Your task to perform on an android device: Check the best rated table lamp on Crate and Barrel Image 0: 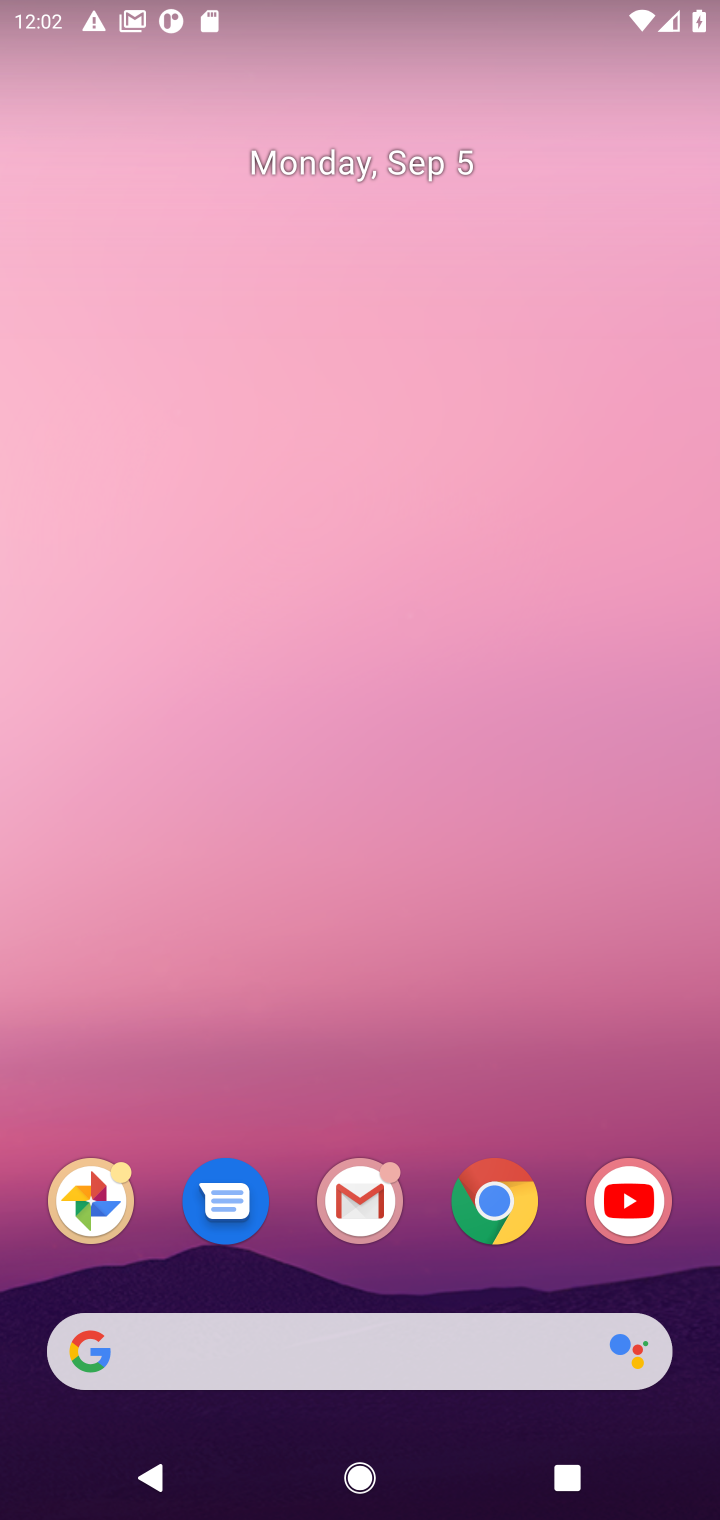
Step 0: click (497, 1207)
Your task to perform on an android device: Check the best rated table lamp on Crate and Barrel Image 1: 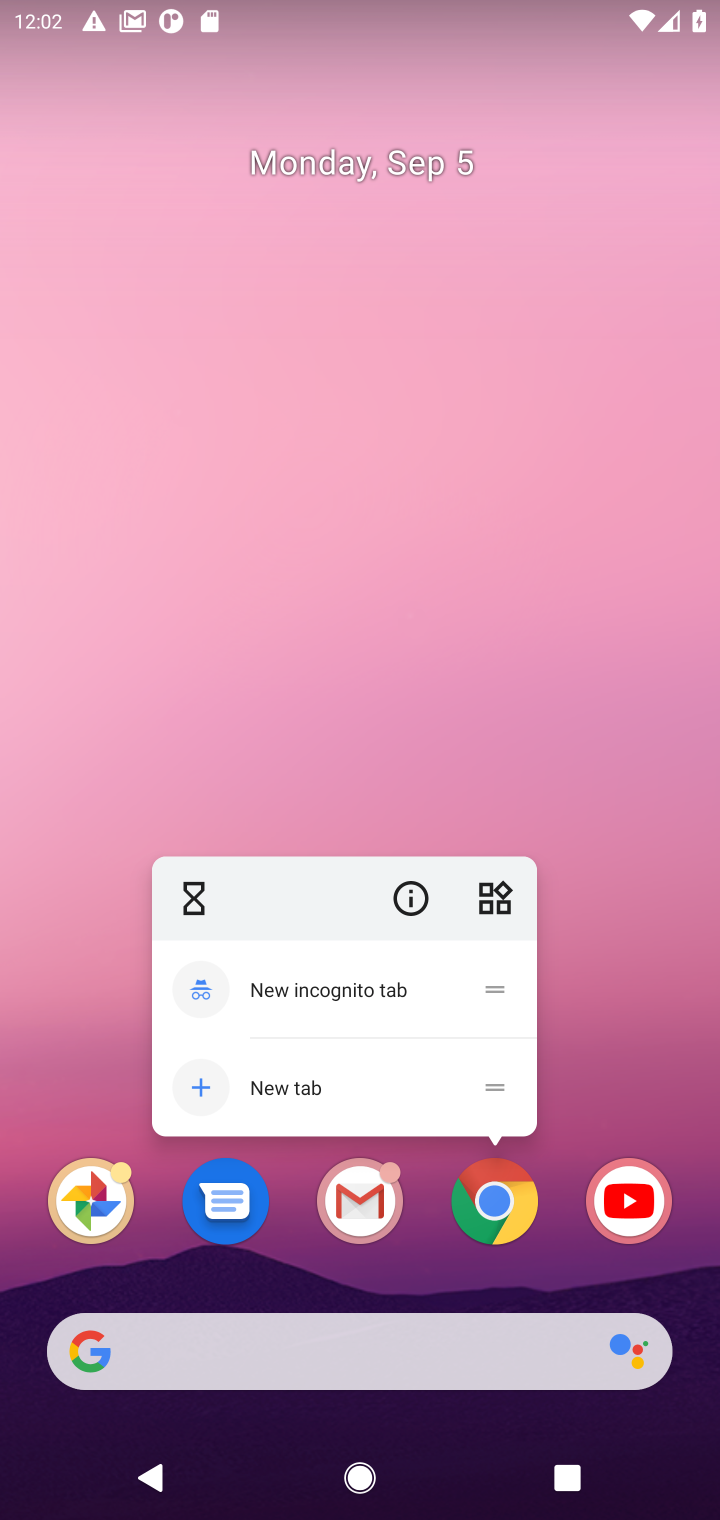
Step 1: click (508, 1190)
Your task to perform on an android device: Check the best rated table lamp on Crate and Barrel Image 2: 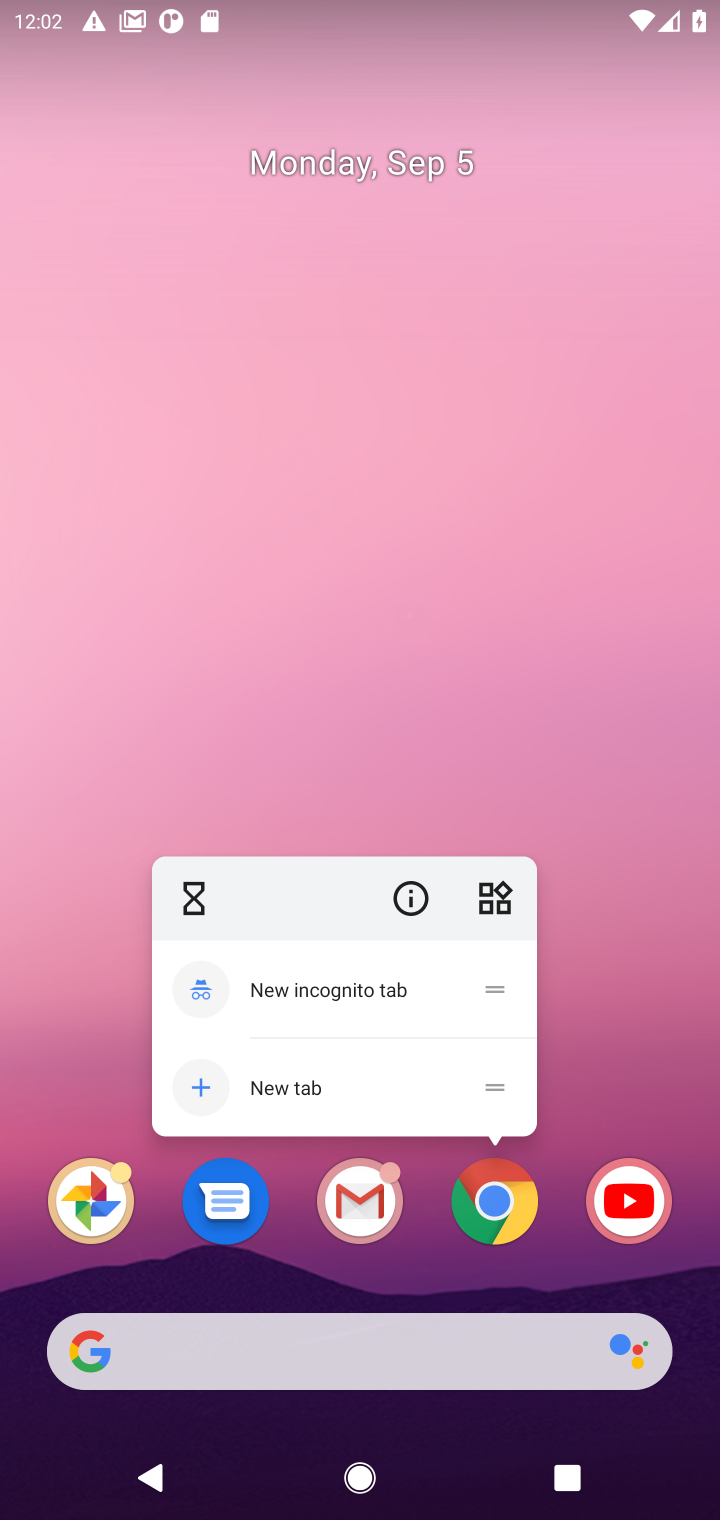
Step 2: click (489, 1217)
Your task to perform on an android device: Check the best rated table lamp on Crate and Barrel Image 3: 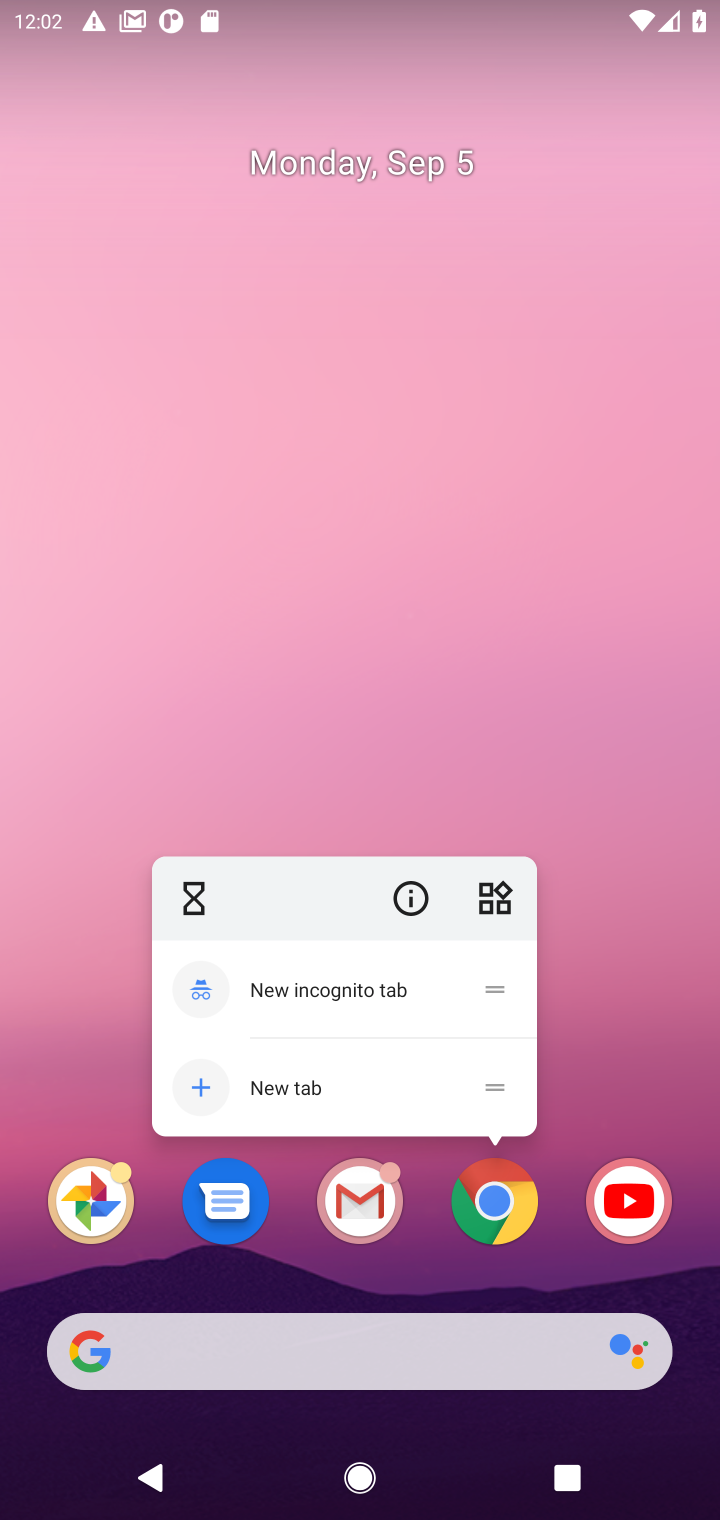
Step 3: click (498, 1206)
Your task to perform on an android device: Check the best rated table lamp on Crate and Barrel Image 4: 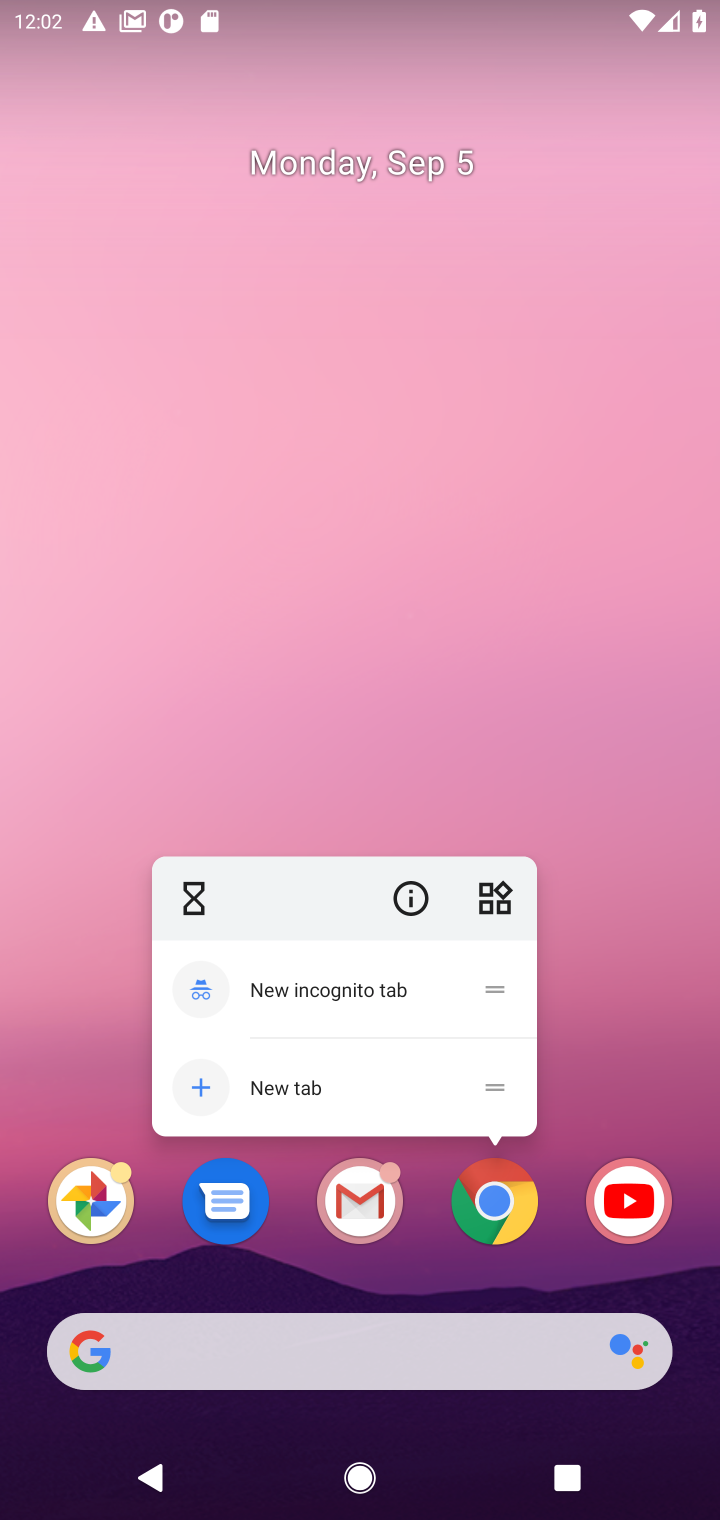
Step 4: click (498, 1206)
Your task to perform on an android device: Check the best rated table lamp on Crate and Barrel Image 5: 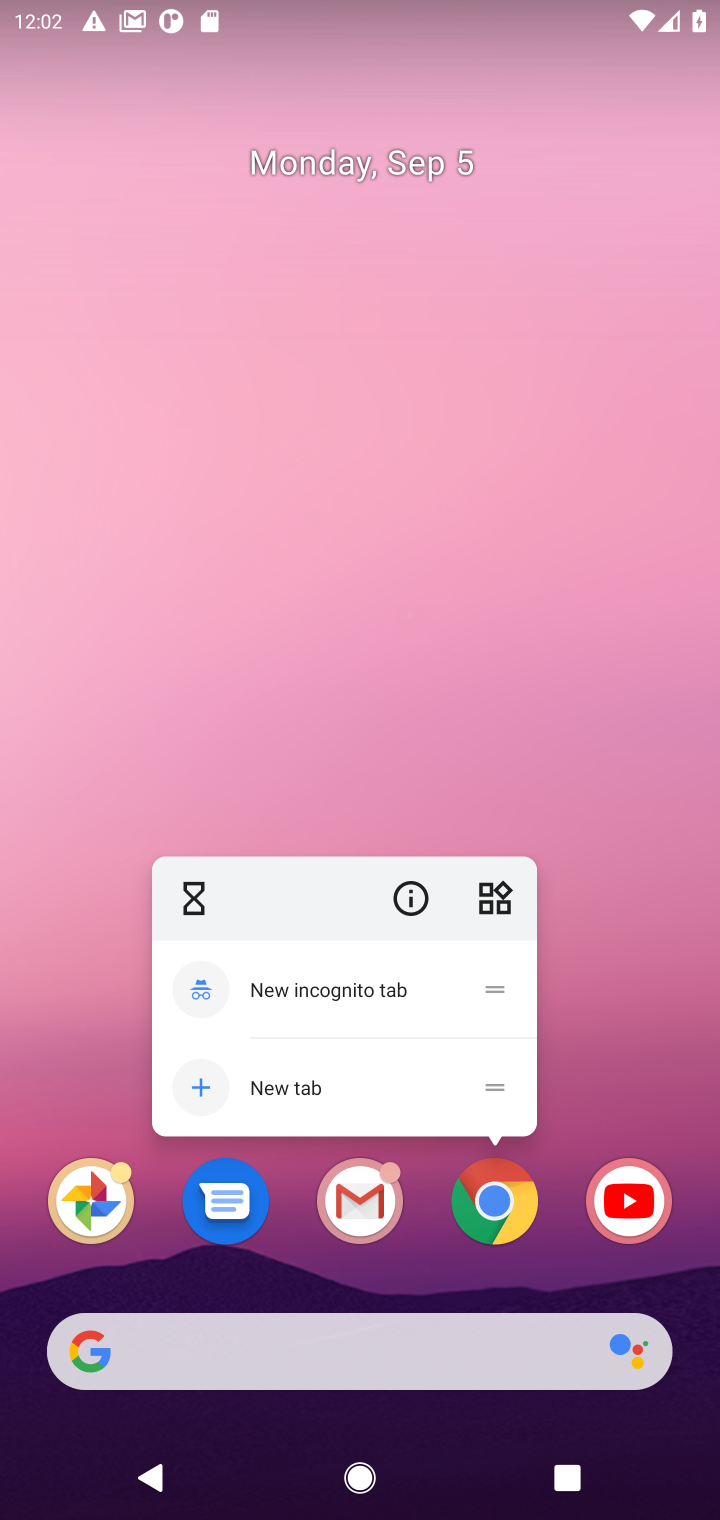
Step 5: click (498, 1206)
Your task to perform on an android device: Check the best rated table lamp on Crate and Barrel Image 6: 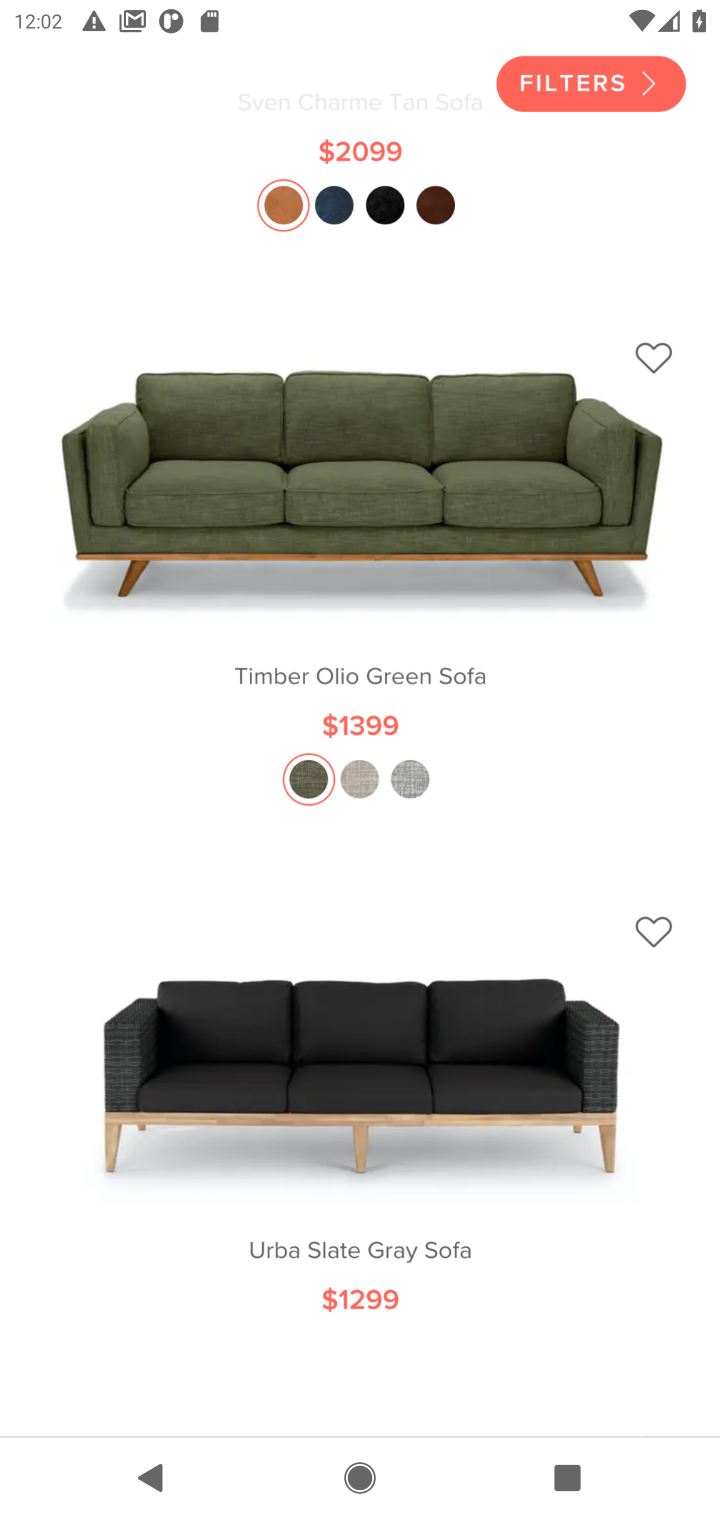
Step 6: click (498, 1206)
Your task to perform on an android device: Check the best rated table lamp on Crate and Barrel Image 7: 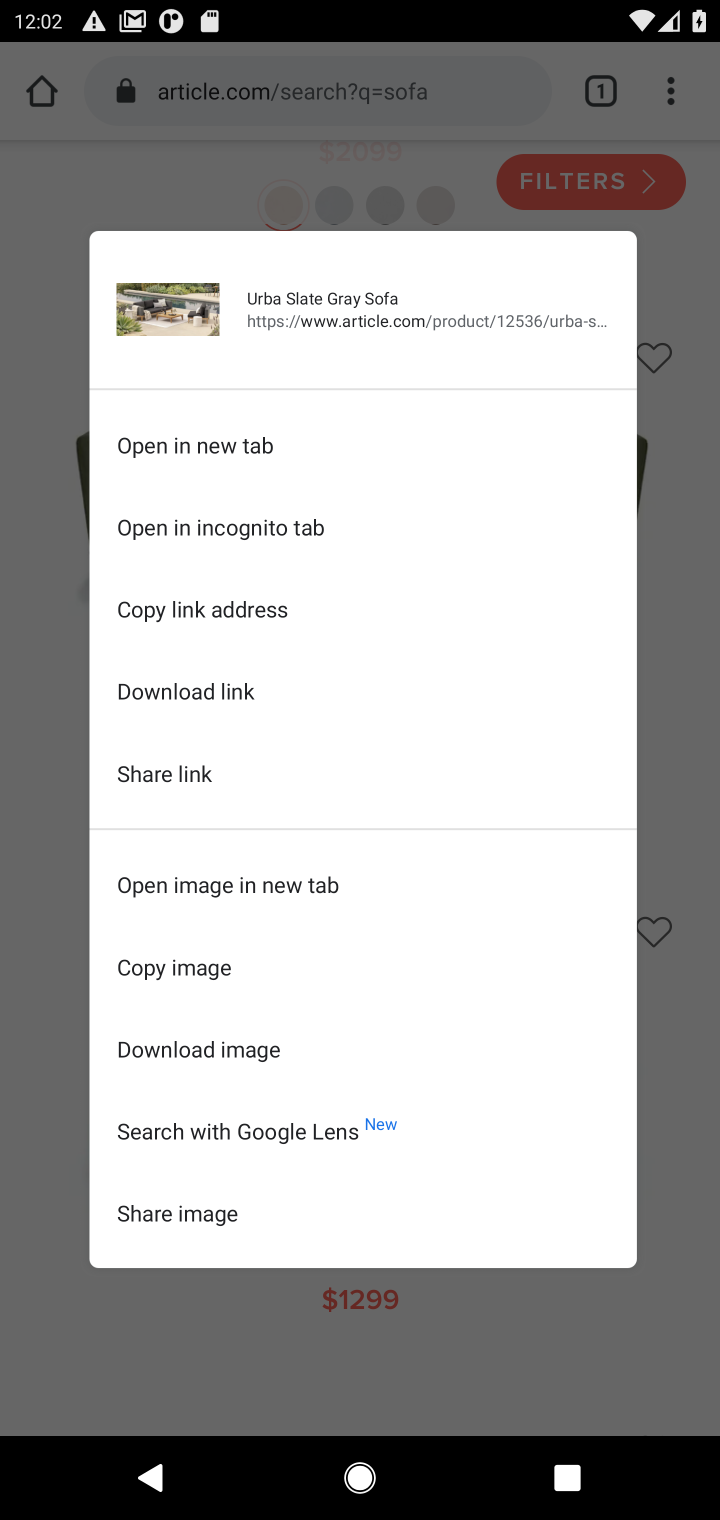
Step 7: click (275, 91)
Your task to perform on an android device: Check the best rated table lamp on Crate and Barrel Image 8: 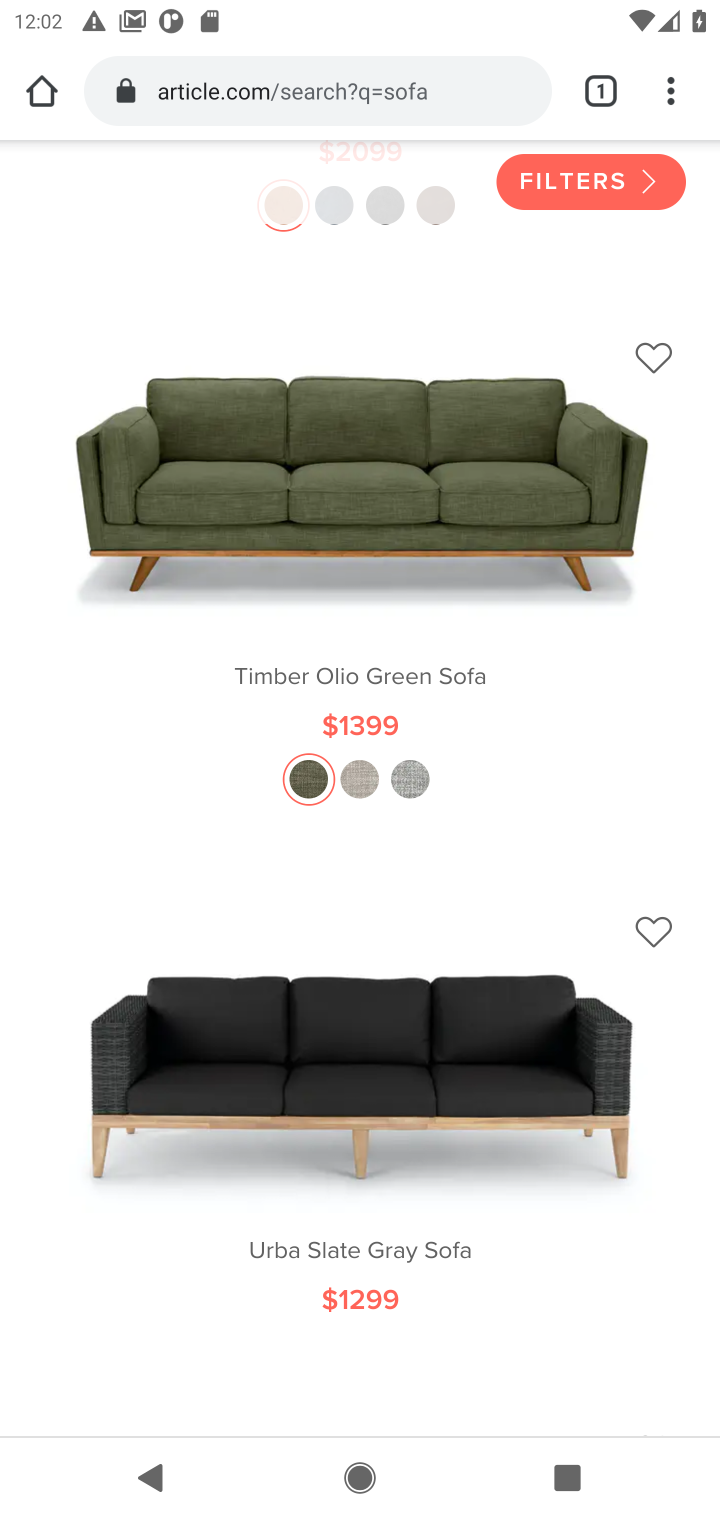
Step 8: click (356, 104)
Your task to perform on an android device: Check the best rated table lamp on Crate and Barrel Image 9: 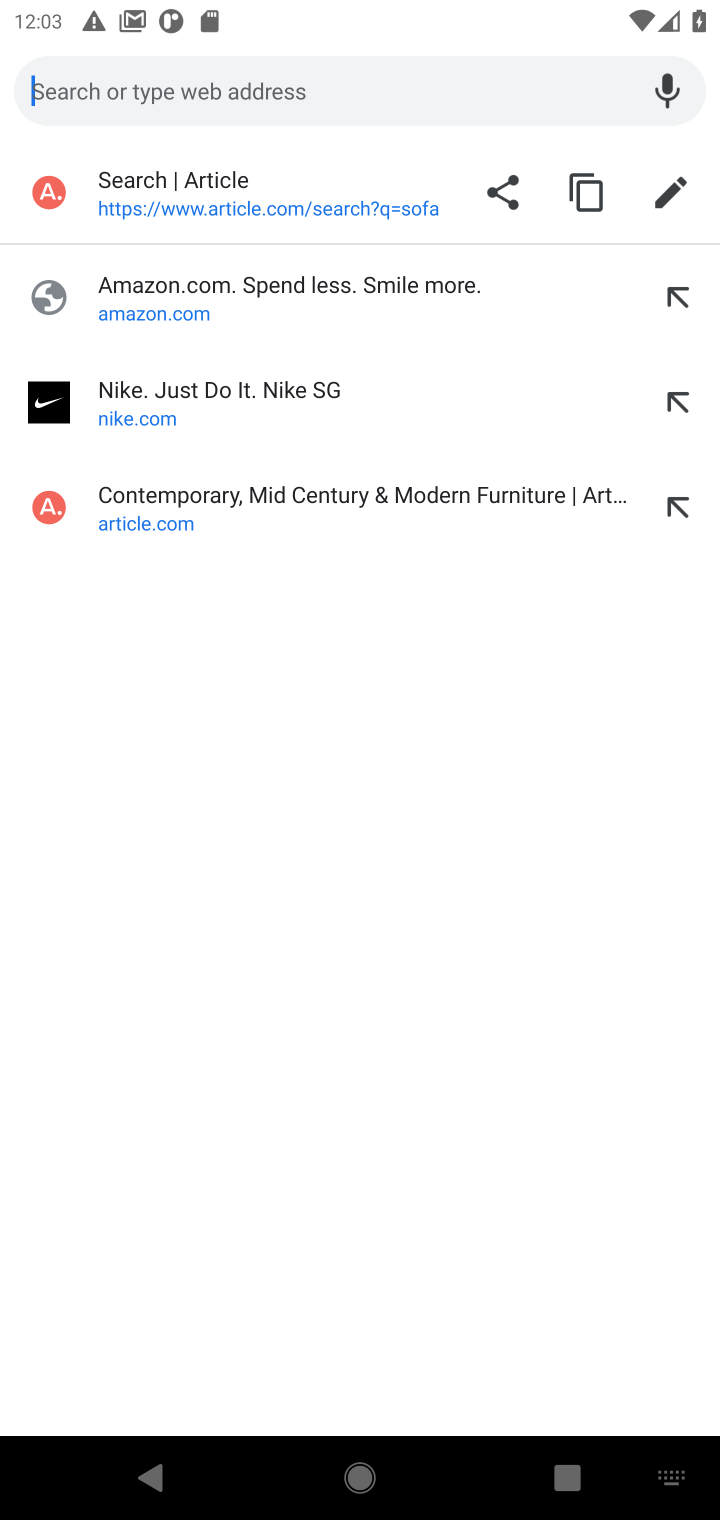
Step 9: type "crate & barrel"
Your task to perform on an android device: Check the best rated table lamp on Crate and Barrel Image 10: 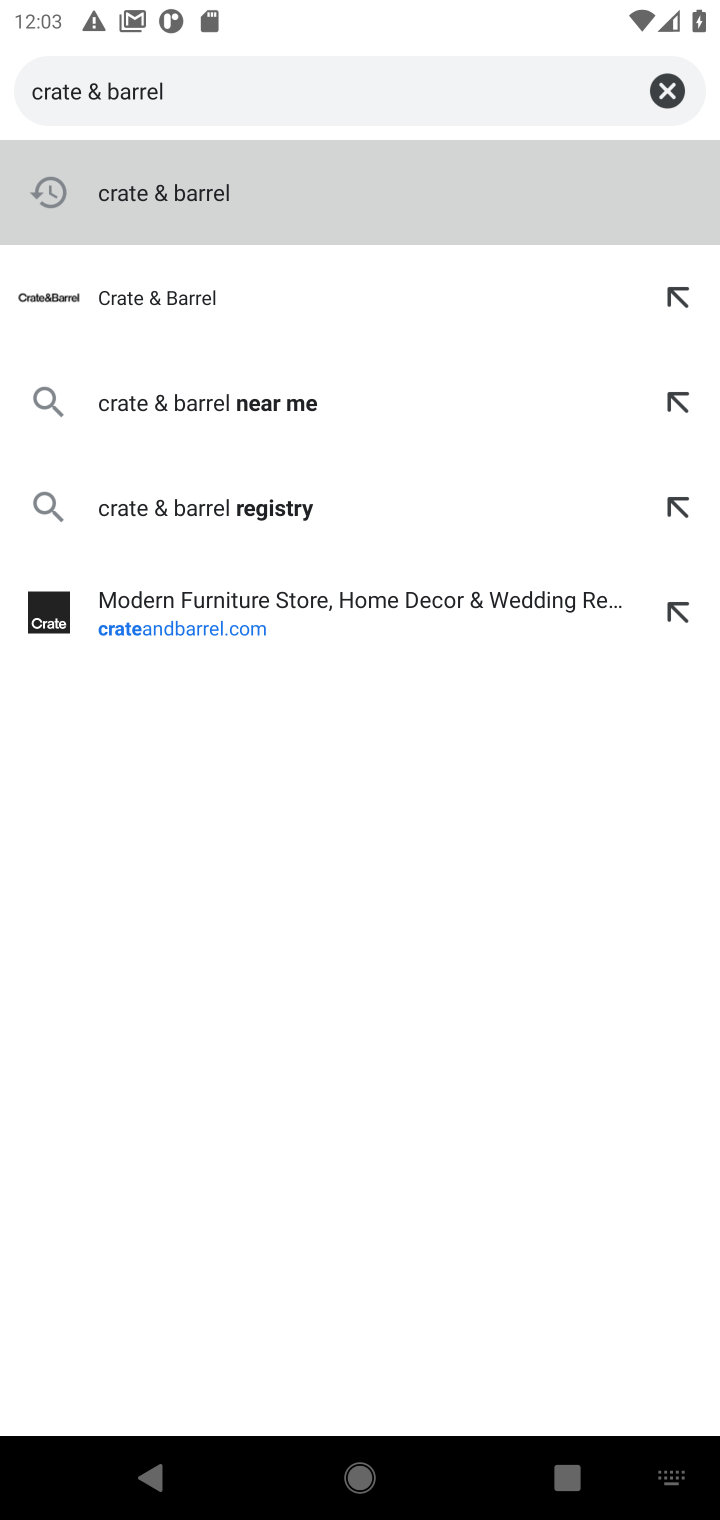
Step 10: click (134, 601)
Your task to perform on an android device: Check the best rated table lamp on Crate and Barrel Image 11: 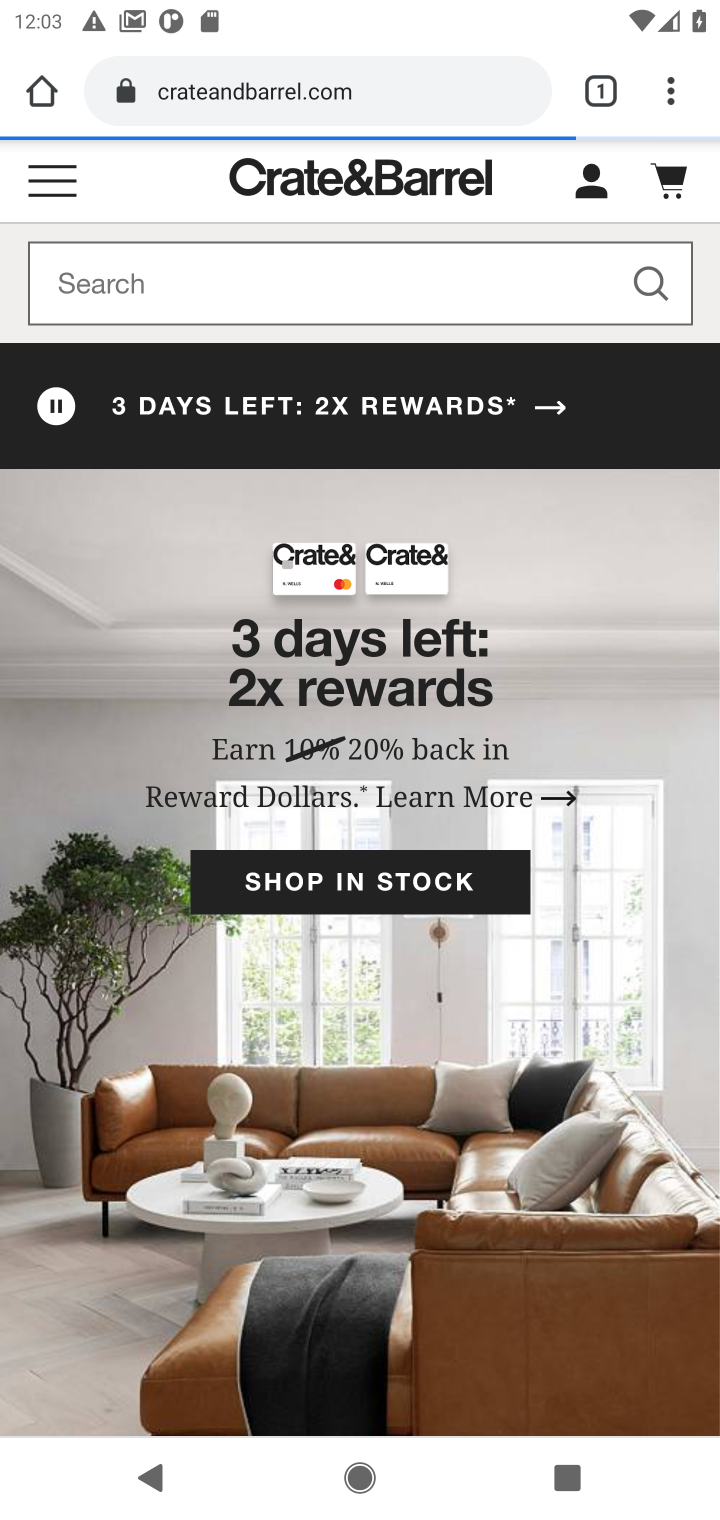
Step 11: click (321, 283)
Your task to perform on an android device: Check the best rated table lamp on Crate and Barrel Image 12: 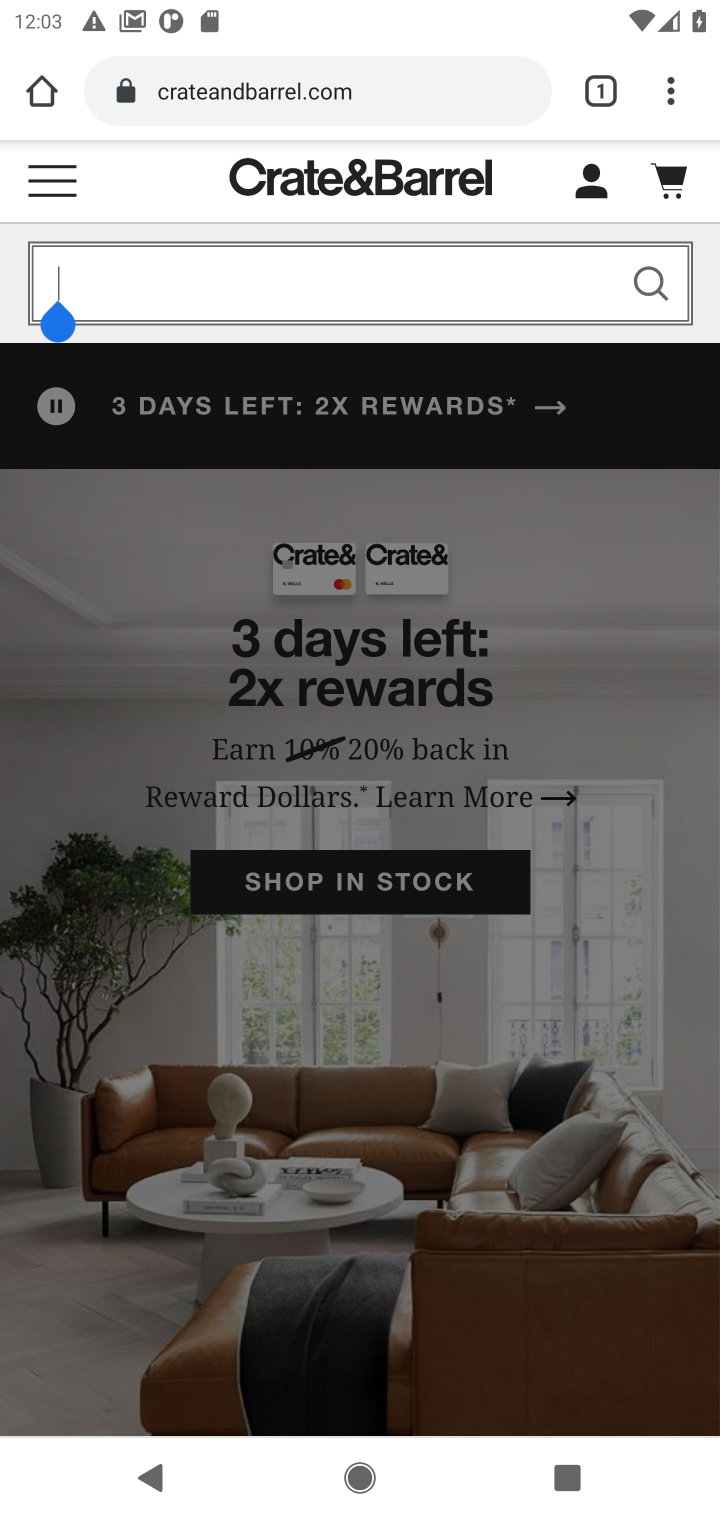
Step 12: click (281, 281)
Your task to perform on an android device: Check the best rated table lamp on Crate and Barrel Image 13: 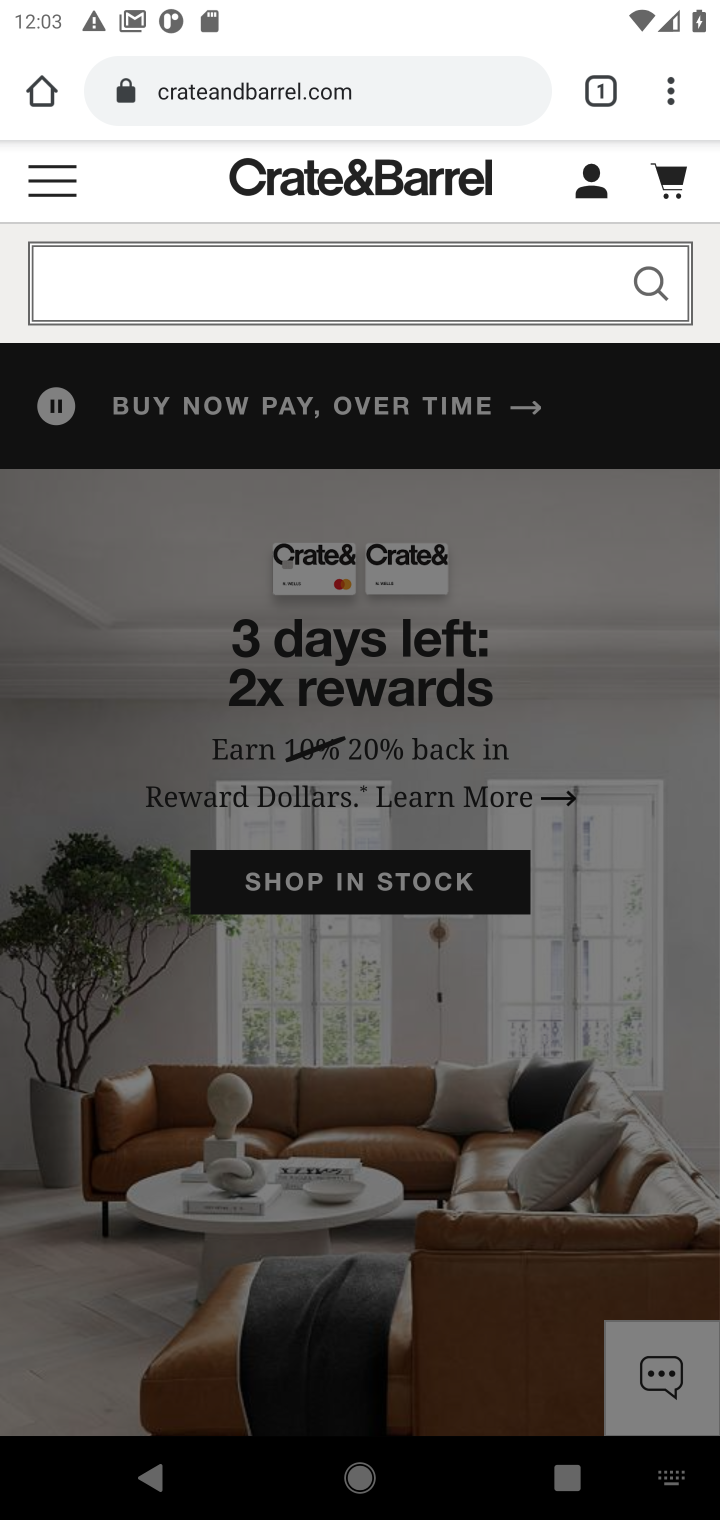
Step 13: type "table lamp"
Your task to perform on an android device: Check the best rated table lamp on Crate and Barrel Image 14: 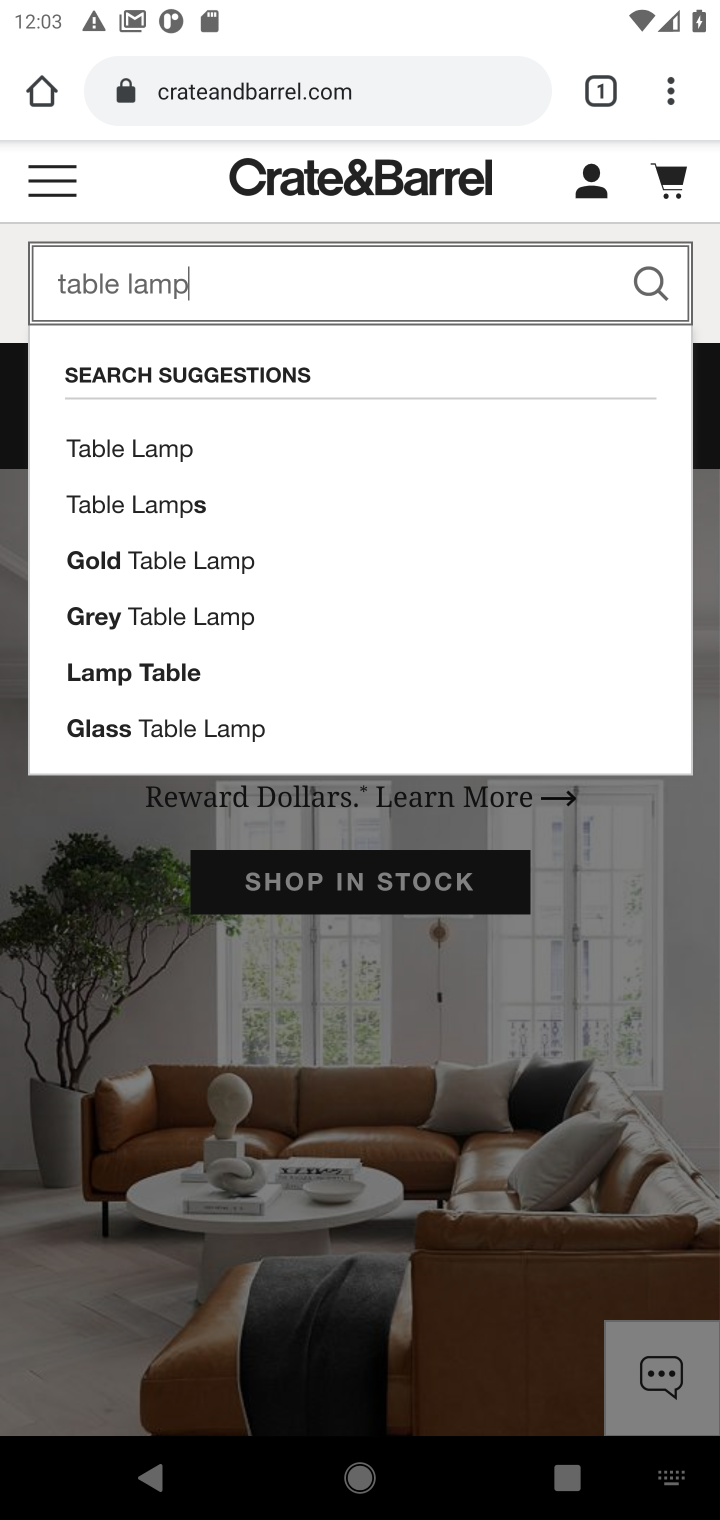
Step 14: click (108, 437)
Your task to perform on an android device: Check the best rated table lamp on Crate and Barrel Image 15: 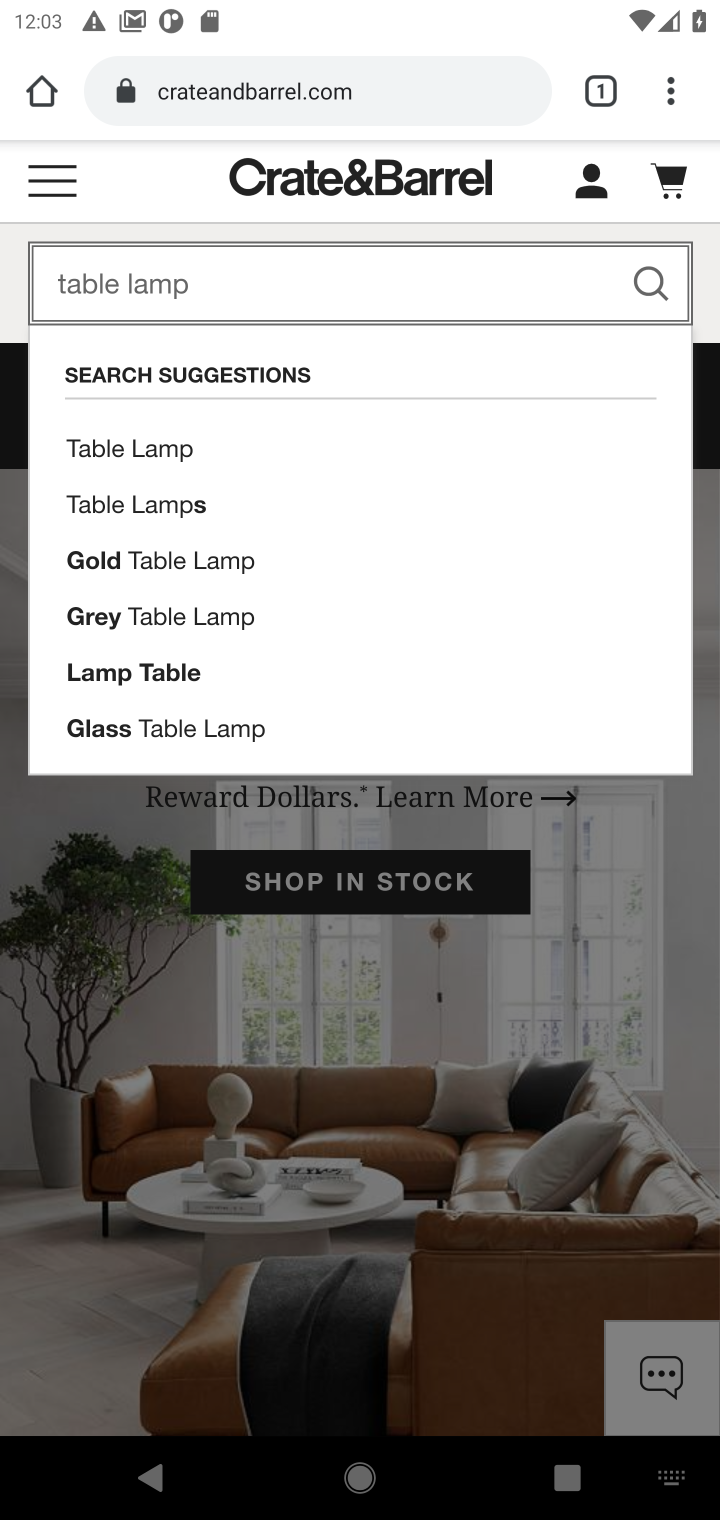
Step 15: click (114, 461)
Your task to perform on an android device: Check the best rated table lamp on Crate and Barrel Image 16: 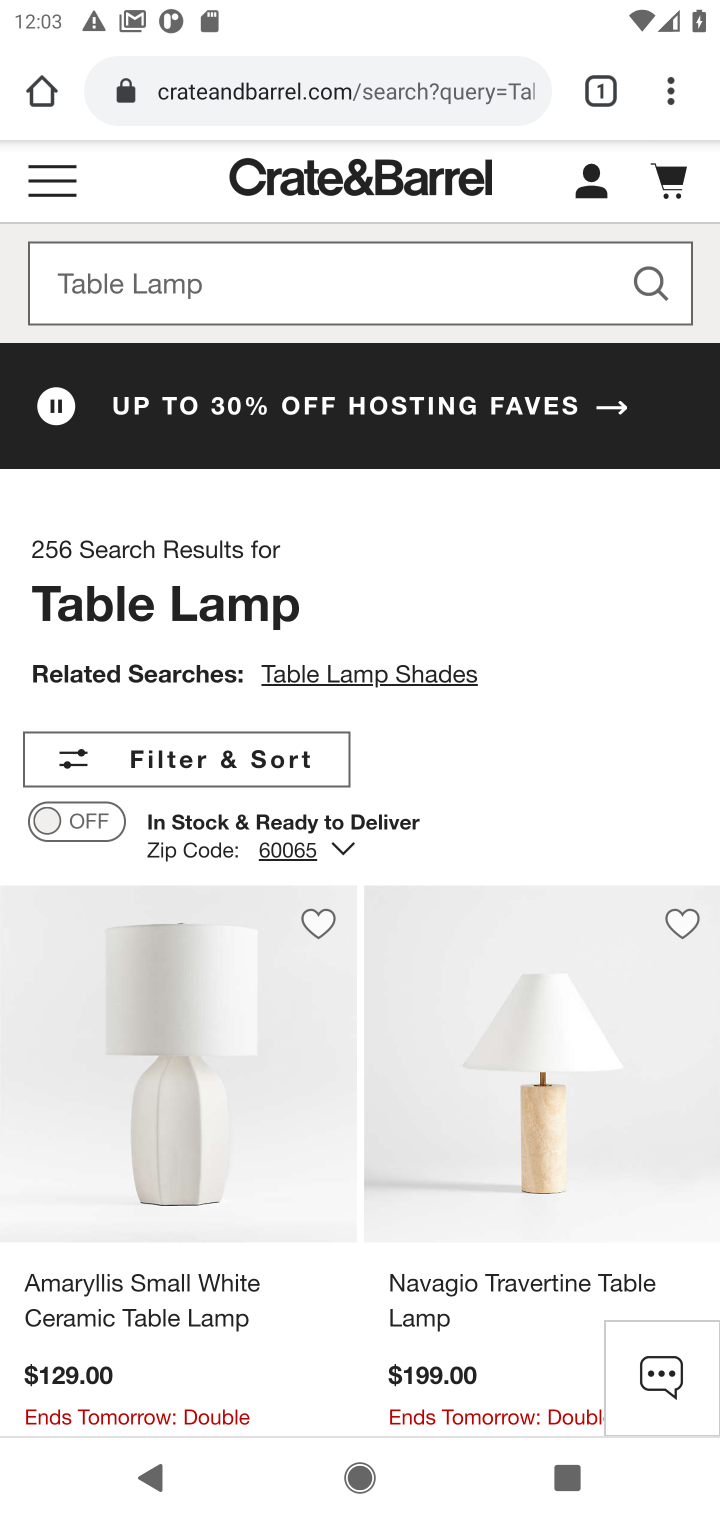
Step 16: click (128, 761)
Your task to perform on an android device: Check the best rated table lamp on Crate and Barrel Image 17: 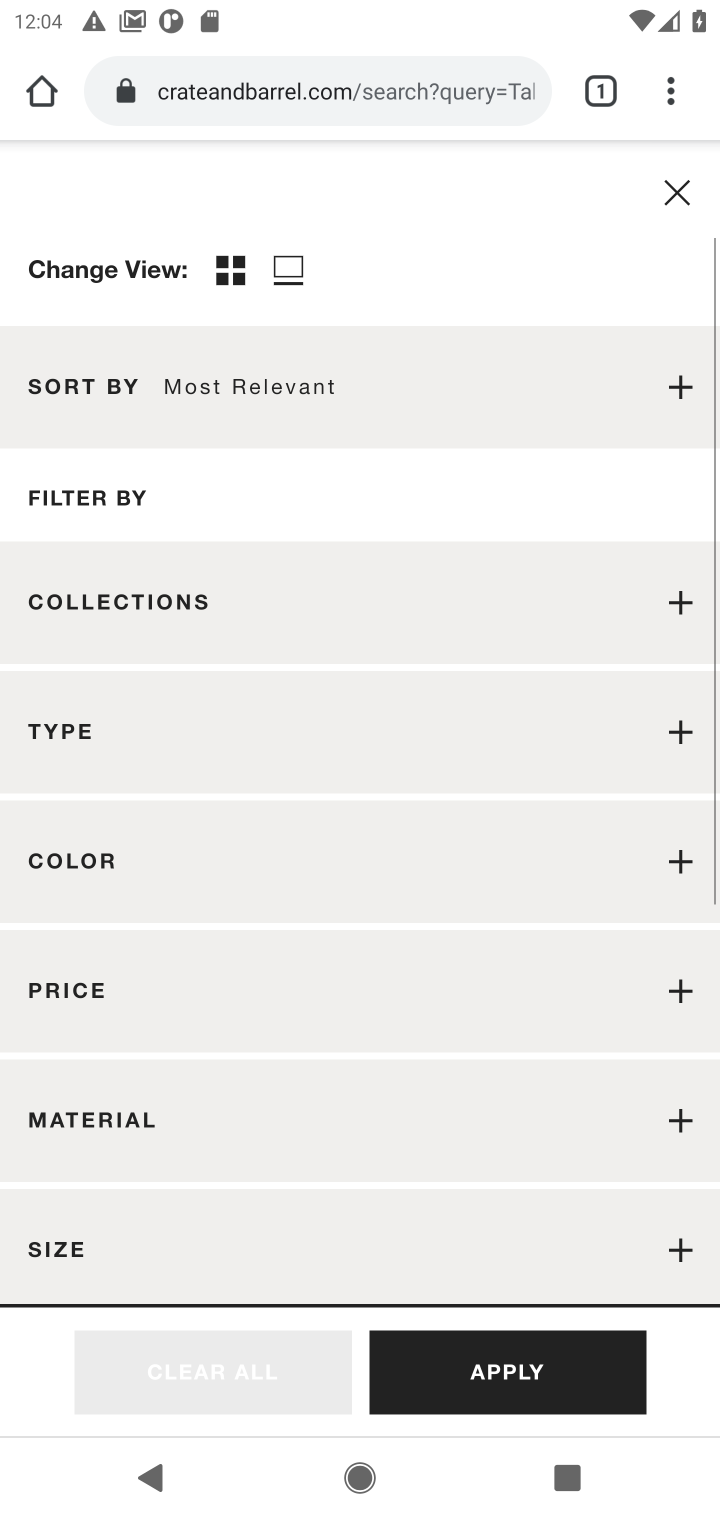
Step 17: drag from (498, 1137) to (504, 431)
Your task to perform on an android device: Check the best rated table lamp on Crate and Barrel Image 18: 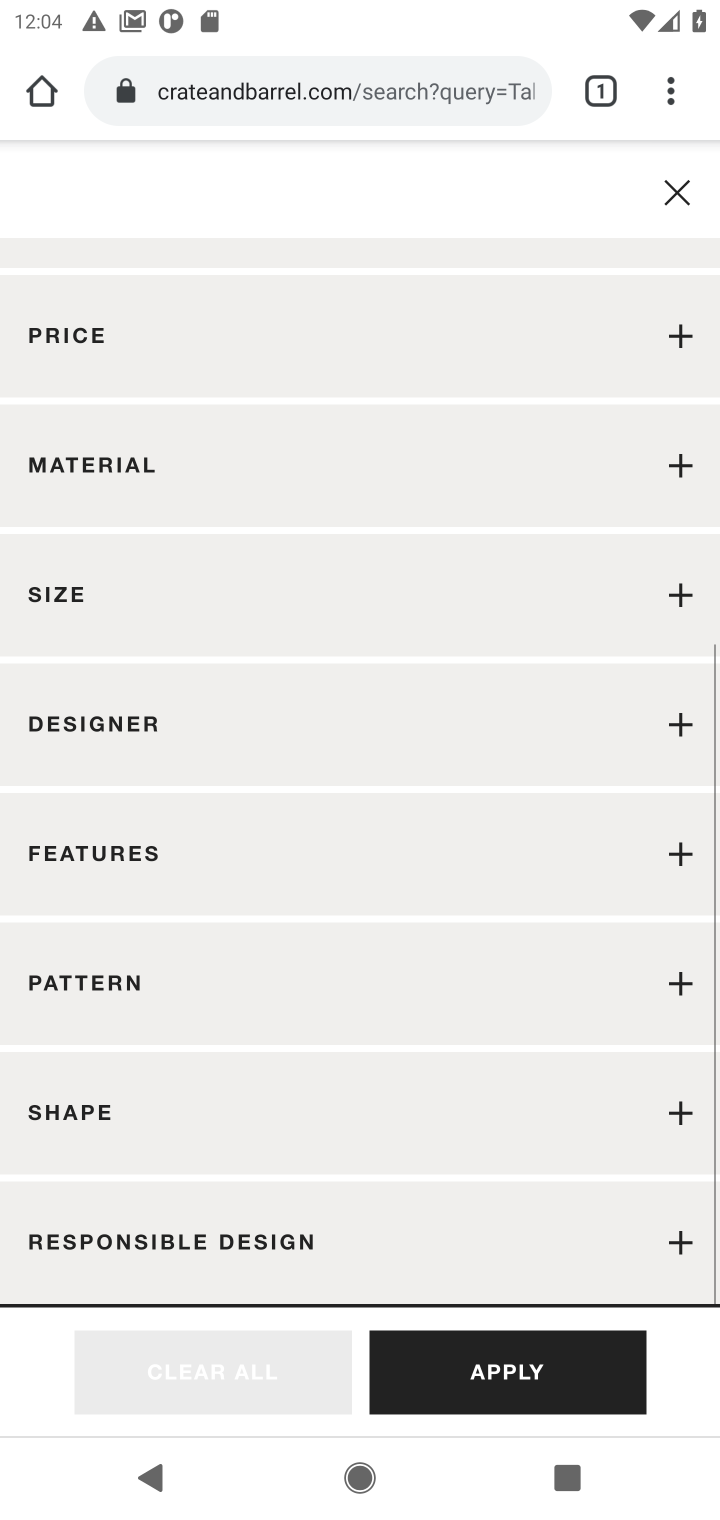
Step 18: drag from (374, 1140) to (451, 531)
Your task to perform on an android device: Check the best rated table lamp on Crate and Barrel Image 19: 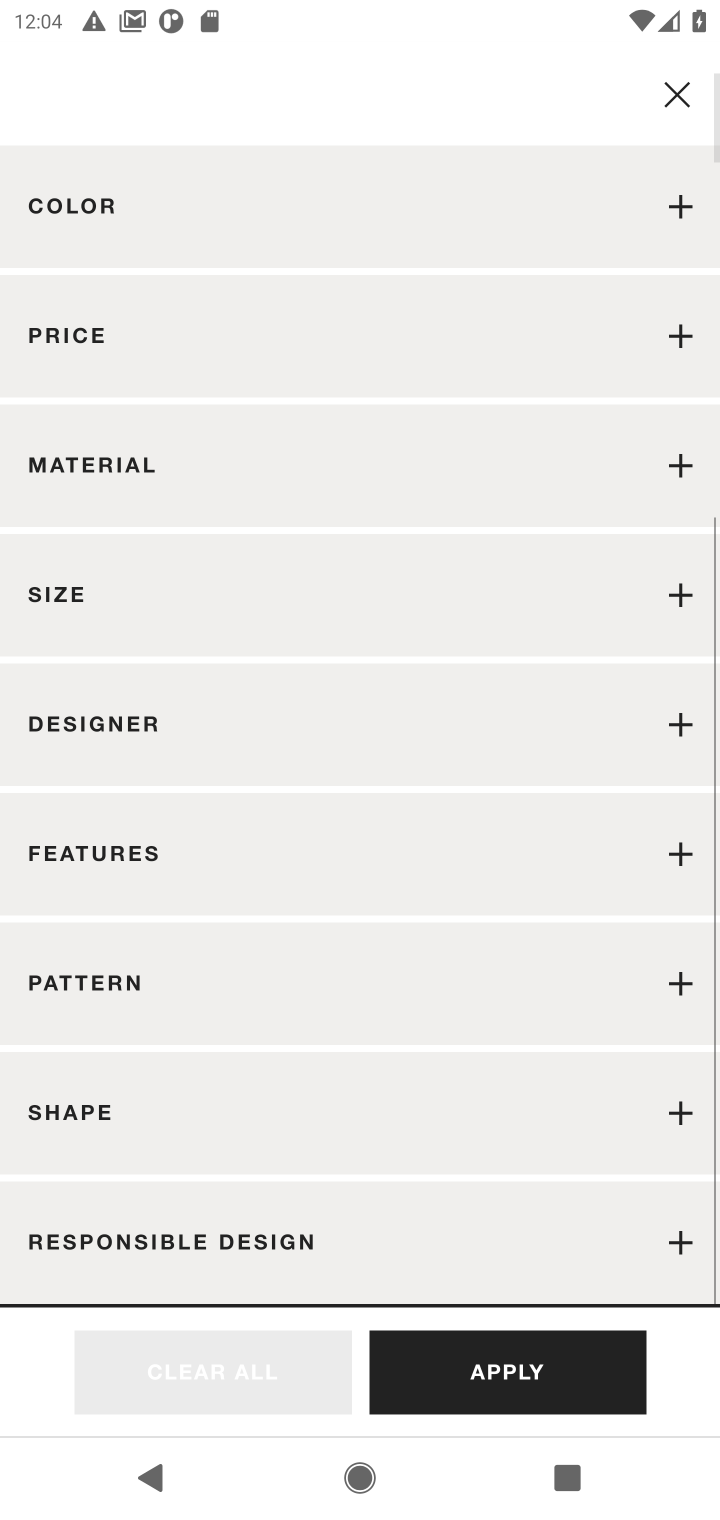
Step 19: drag from (491, 867) to (469, 412)
Your task to perform on an android device: Check the best rated table lamp on Crate and Barrel Image 20: 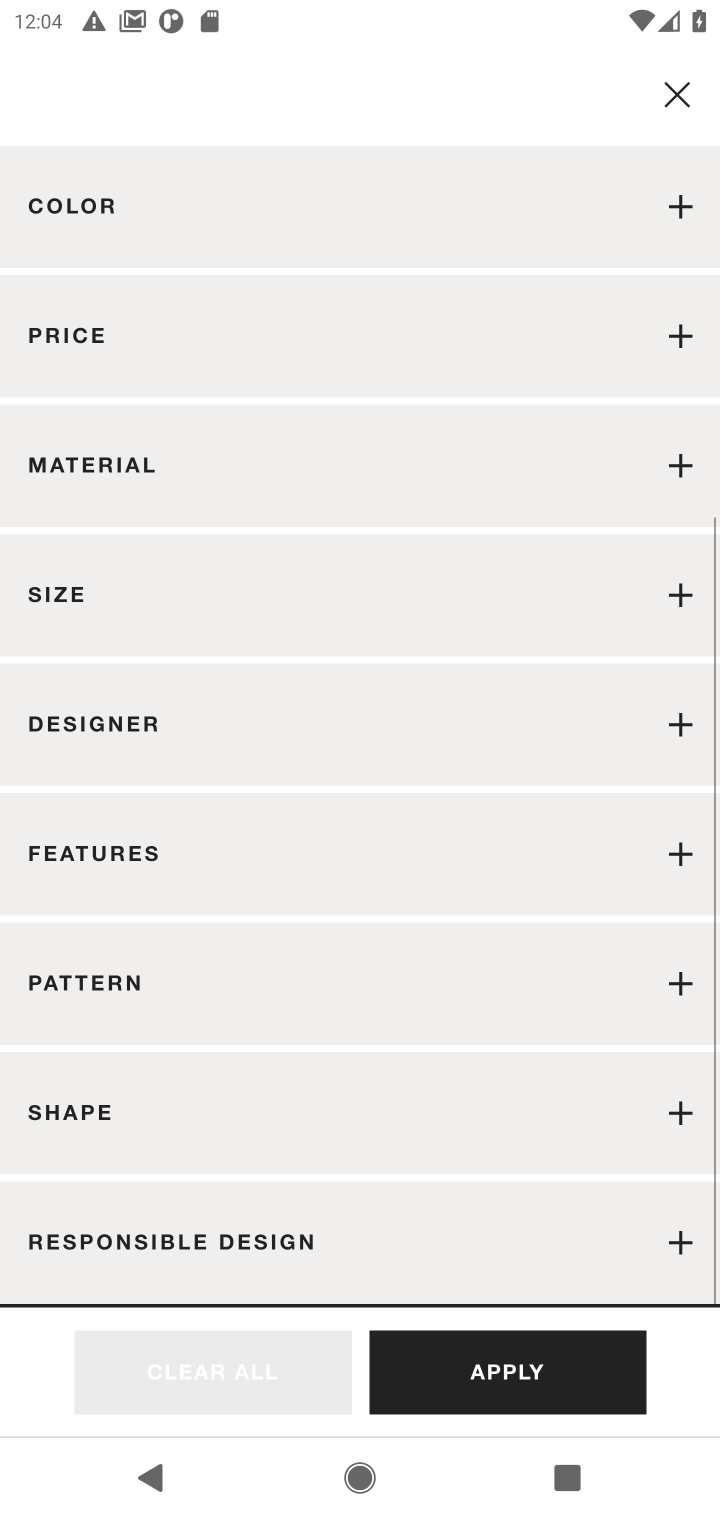
Step 20: drag from (474, 984) to (429, 545)
Your task to perform on an android device: Check the best rated table lamp on Crate and Barrel Image 21: 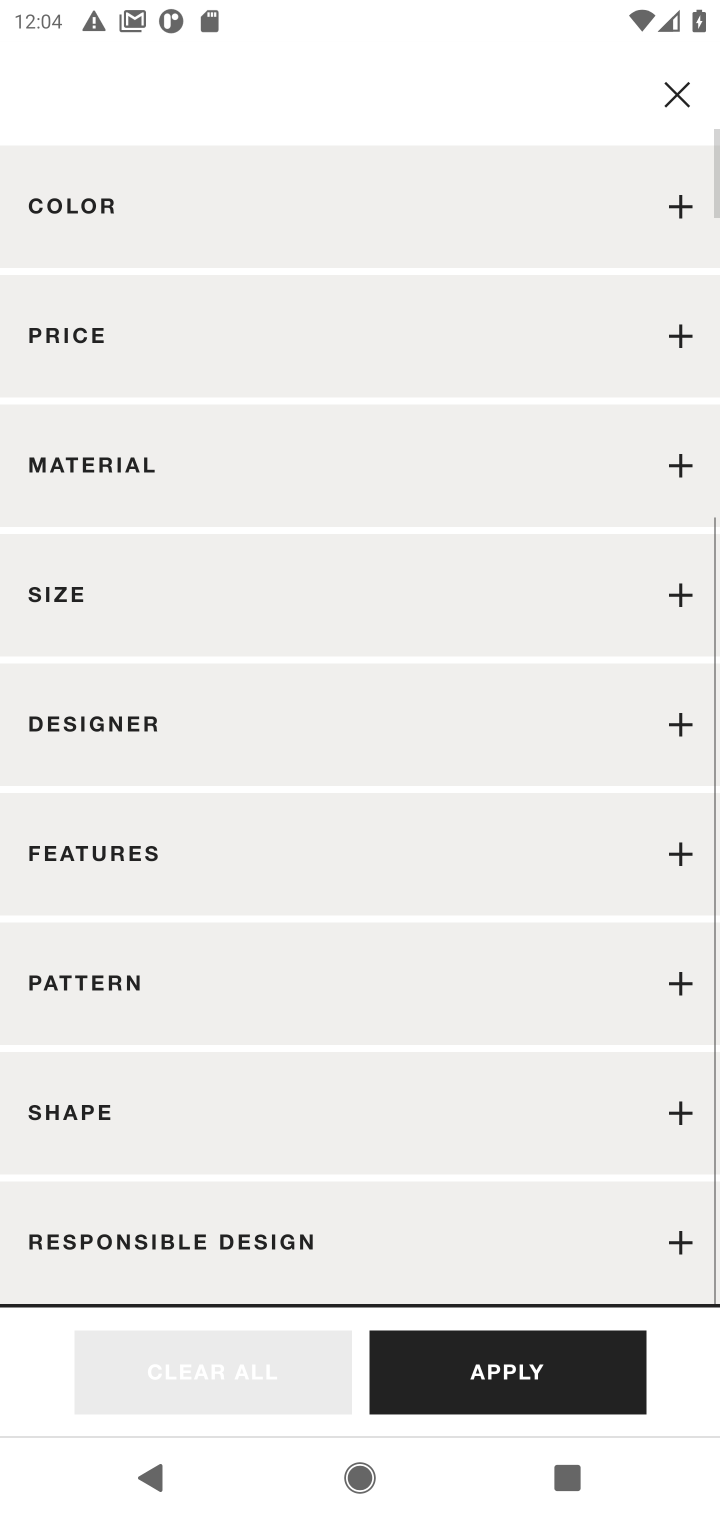
Step 21: drag from (429, 926) to (466, 482)
Your task to perform on an android device: Check the best rated table lamp on Crate and Barrel Image 22: 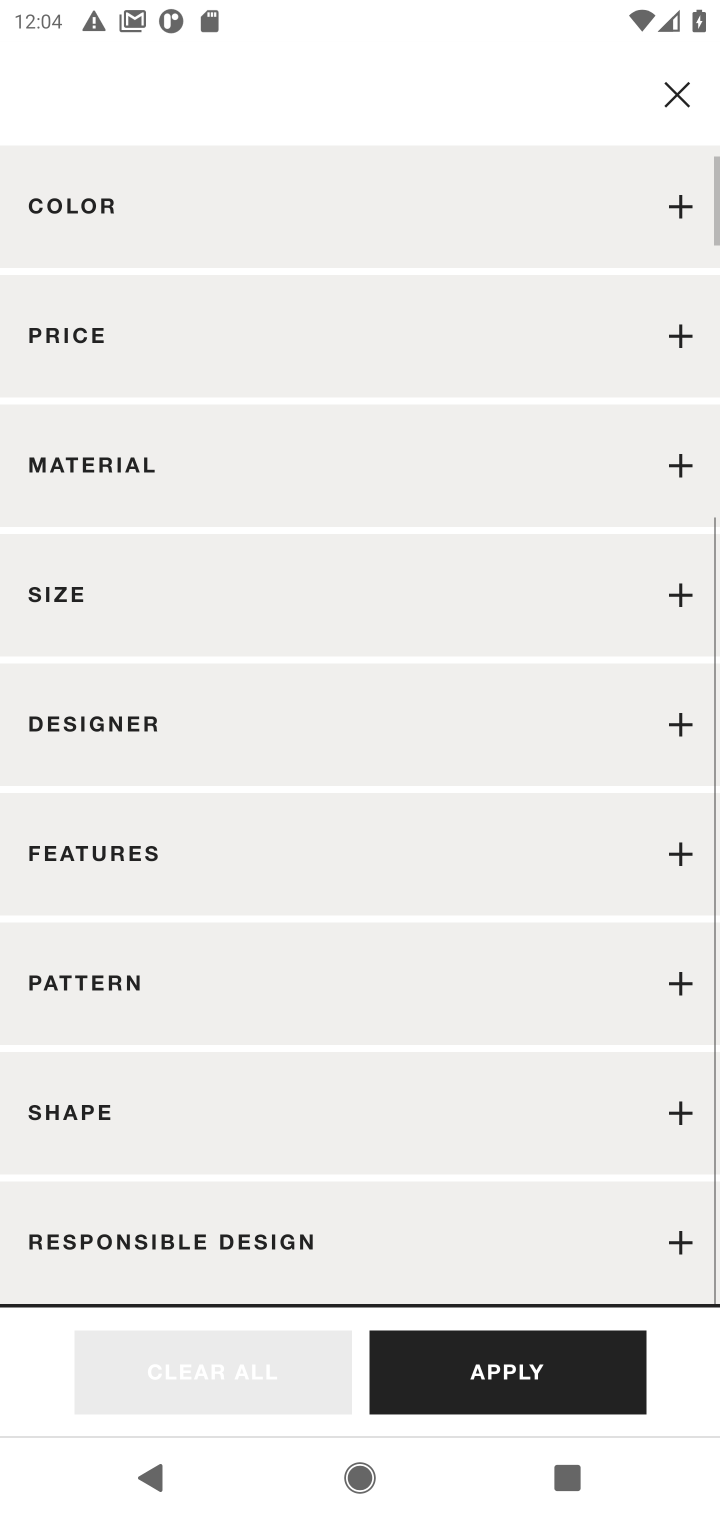
Step 22: drag from (464, 480) to (468, 1195)
Your task to perform on an android device: Check the best rated table lamp on Crate and Barrel Image 23: 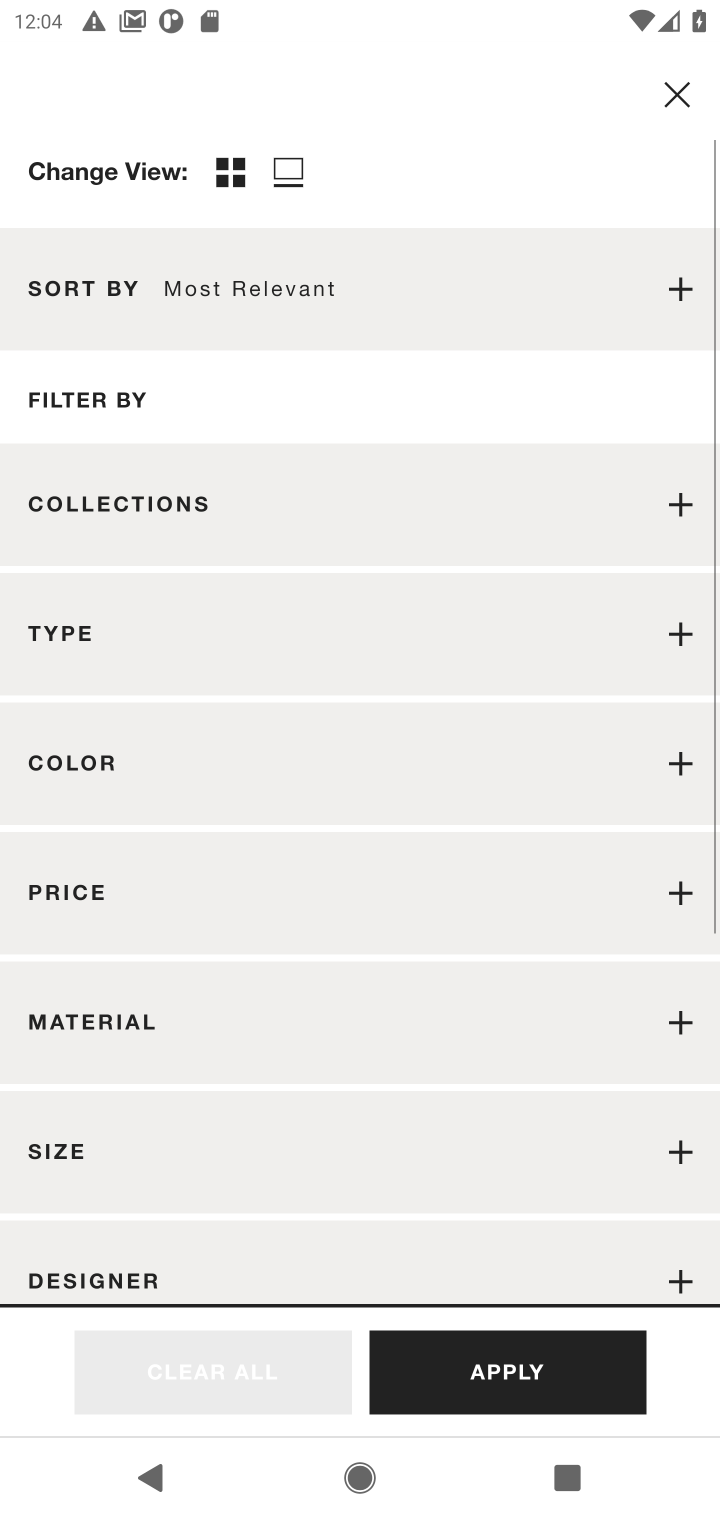
Step 23: drag from (437, 668) to (457, 1103)
Your task to perform on an android device: Check the best rated table lamp on Crate and Barrel Image 24: 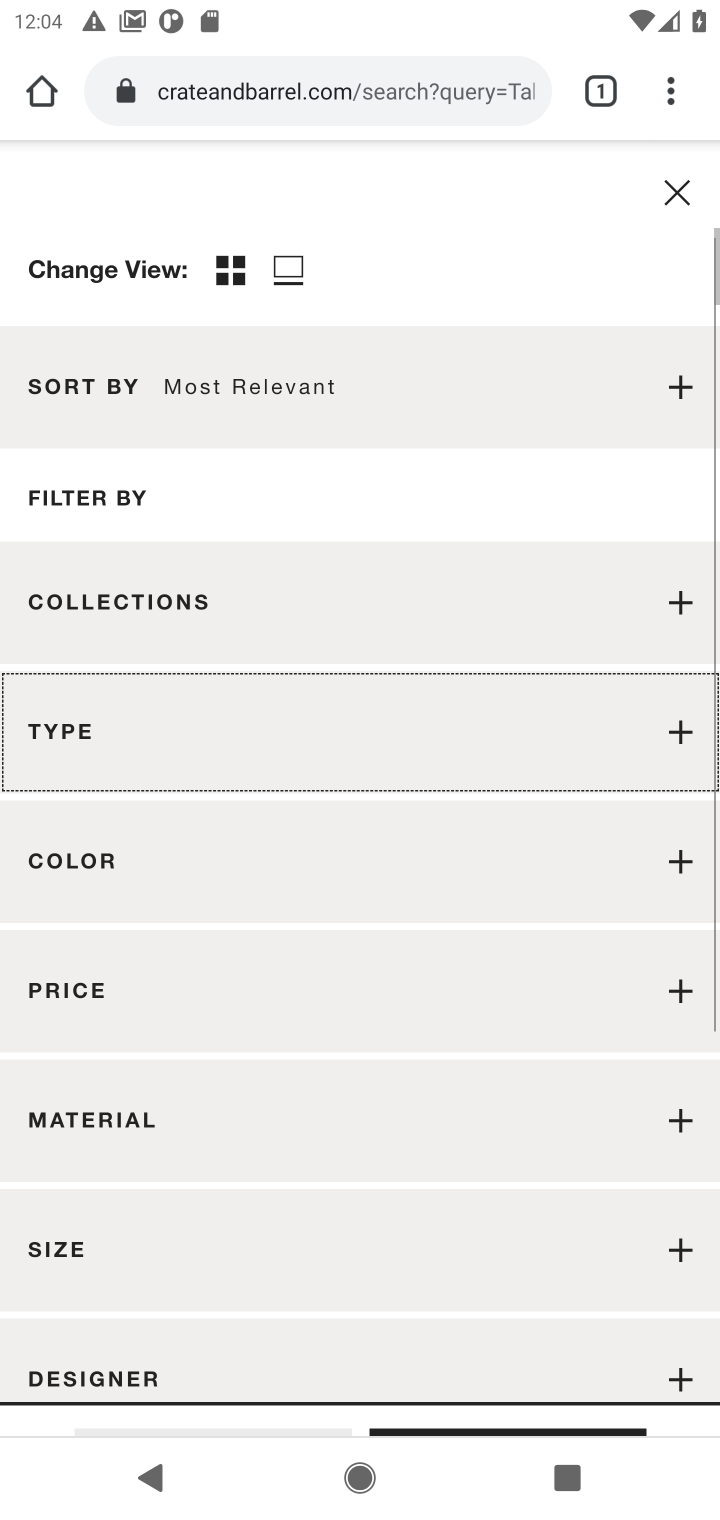
Step 24: click (670, 988)
Your task to perform on an android device: Check the best rated table lamp on Crate and Barrel Image 25: 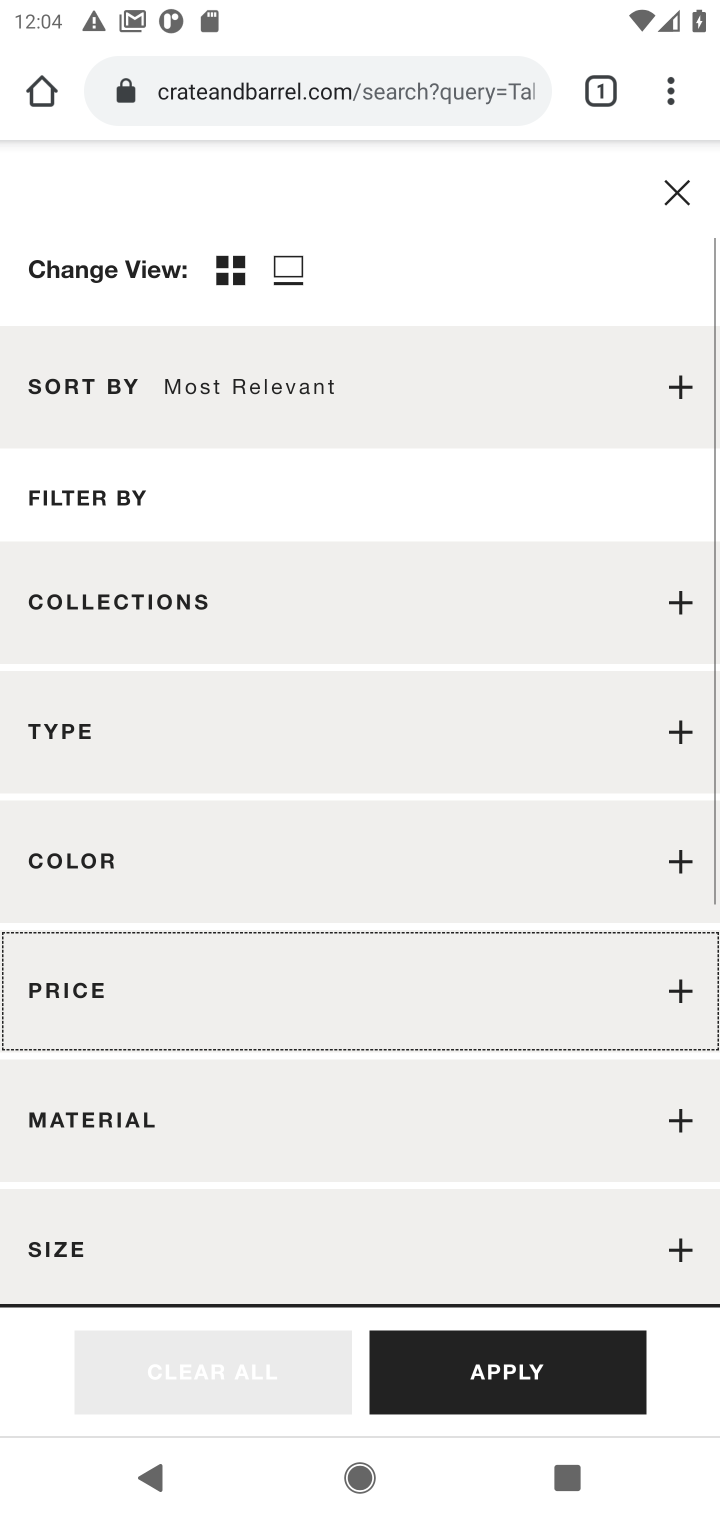
Step 25: click (675, 994)
Your task to perform on an android device: Check the best rated table lamp on Crate and Barrel Image 26: 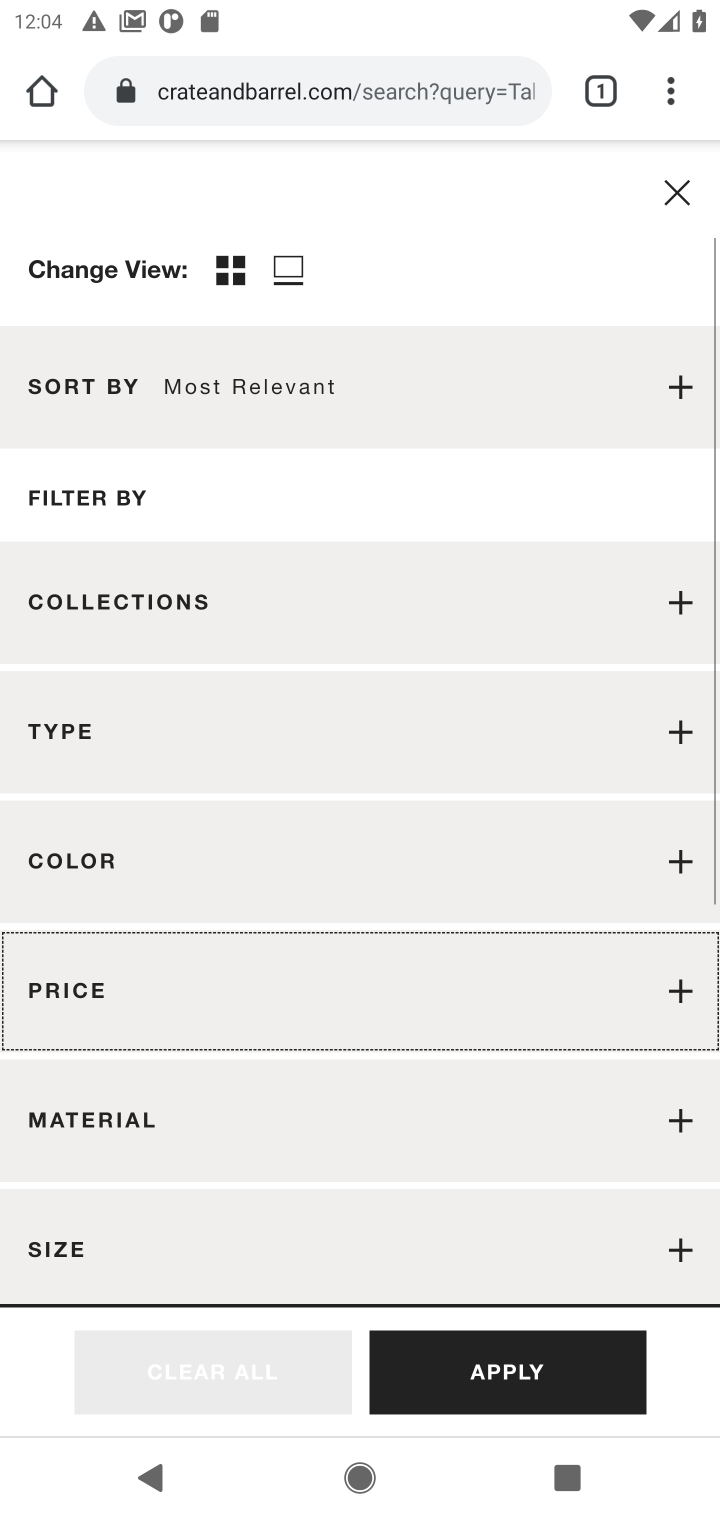
Step 26: click (691, 989)
Your task to perform on an android device: Check the best rated table lamp on Crate and Barrel Image 27: 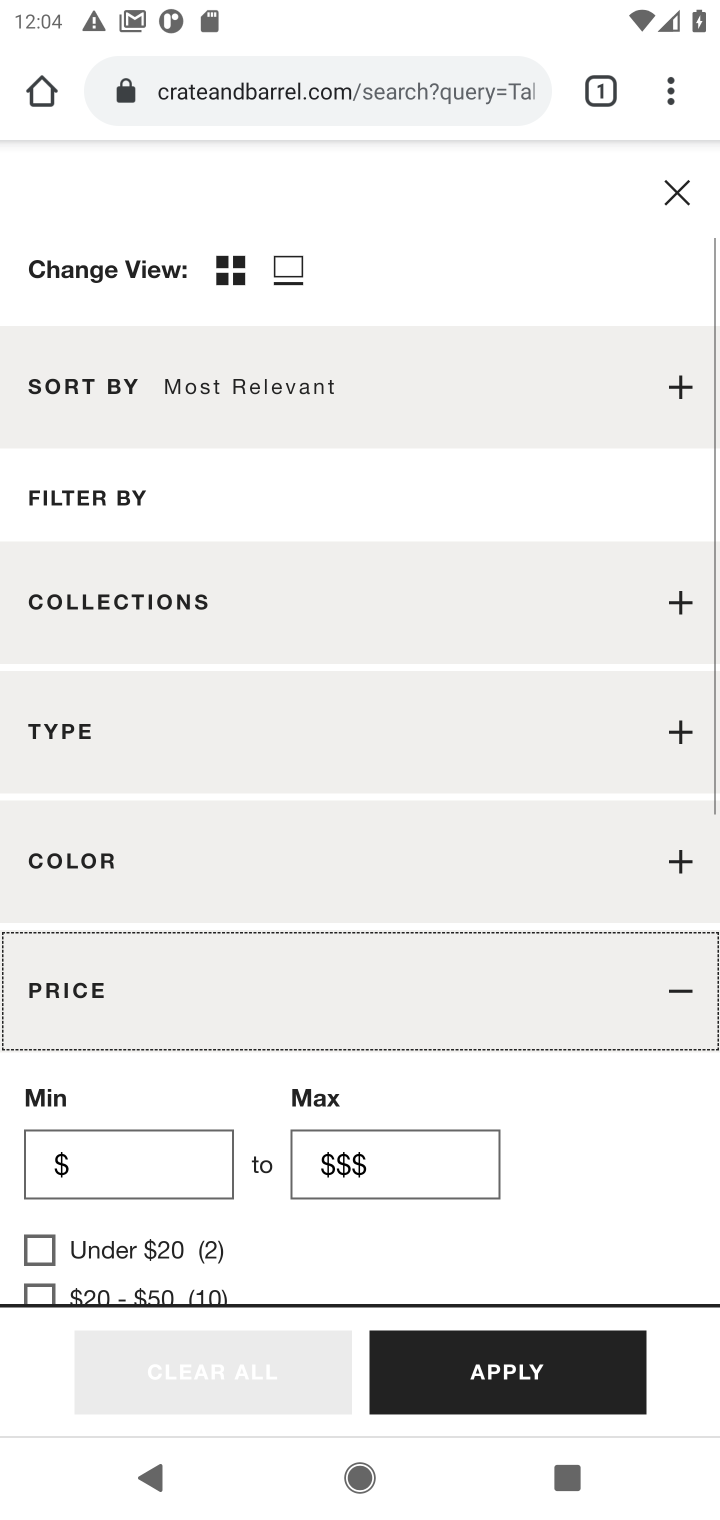
Step 27: click (680, 1002)
Your task to perform on an android device: Check the best rated table lamp on Crate and Barrel Image 28: 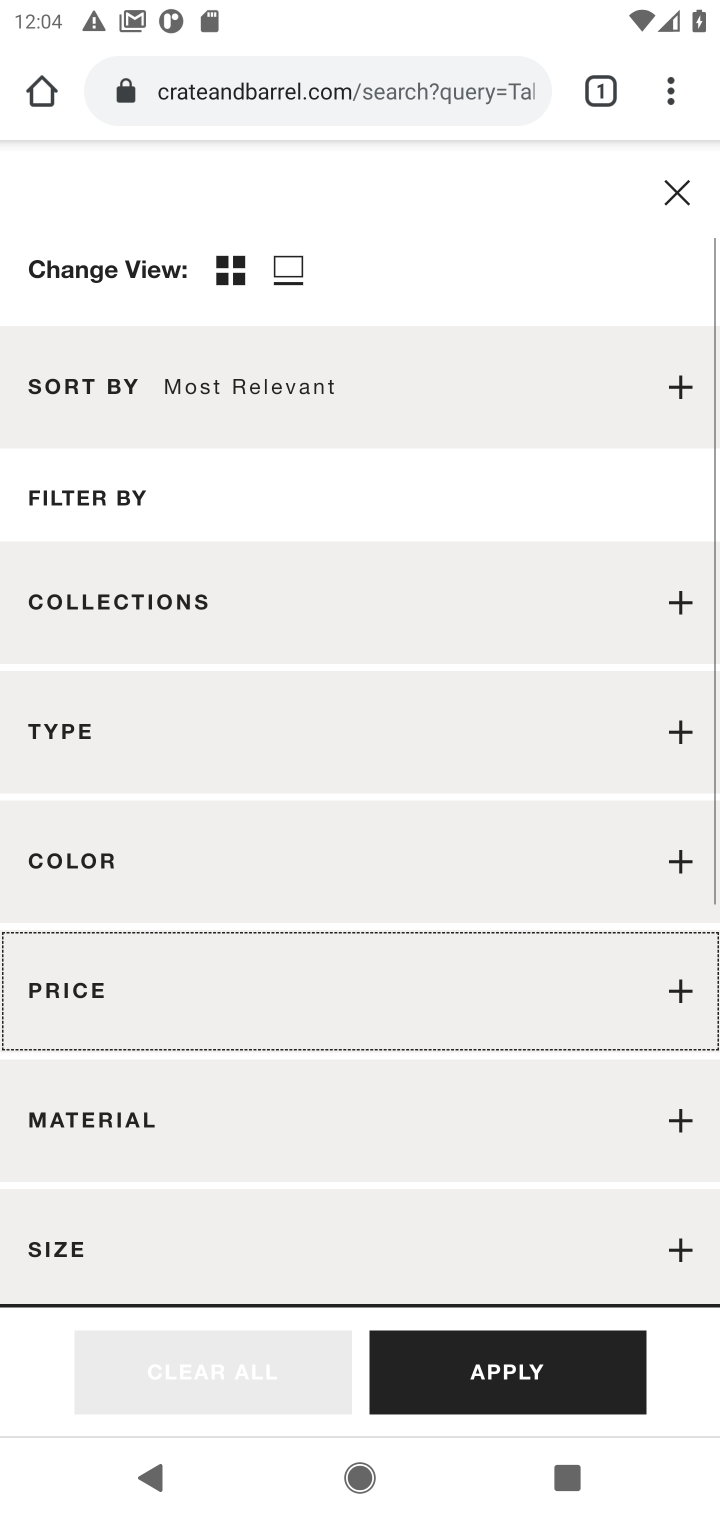
Step 28: click (687, 981)
Your task to perform on an android device: Check the best rated table lamp on Crate and Barrel Image 29: 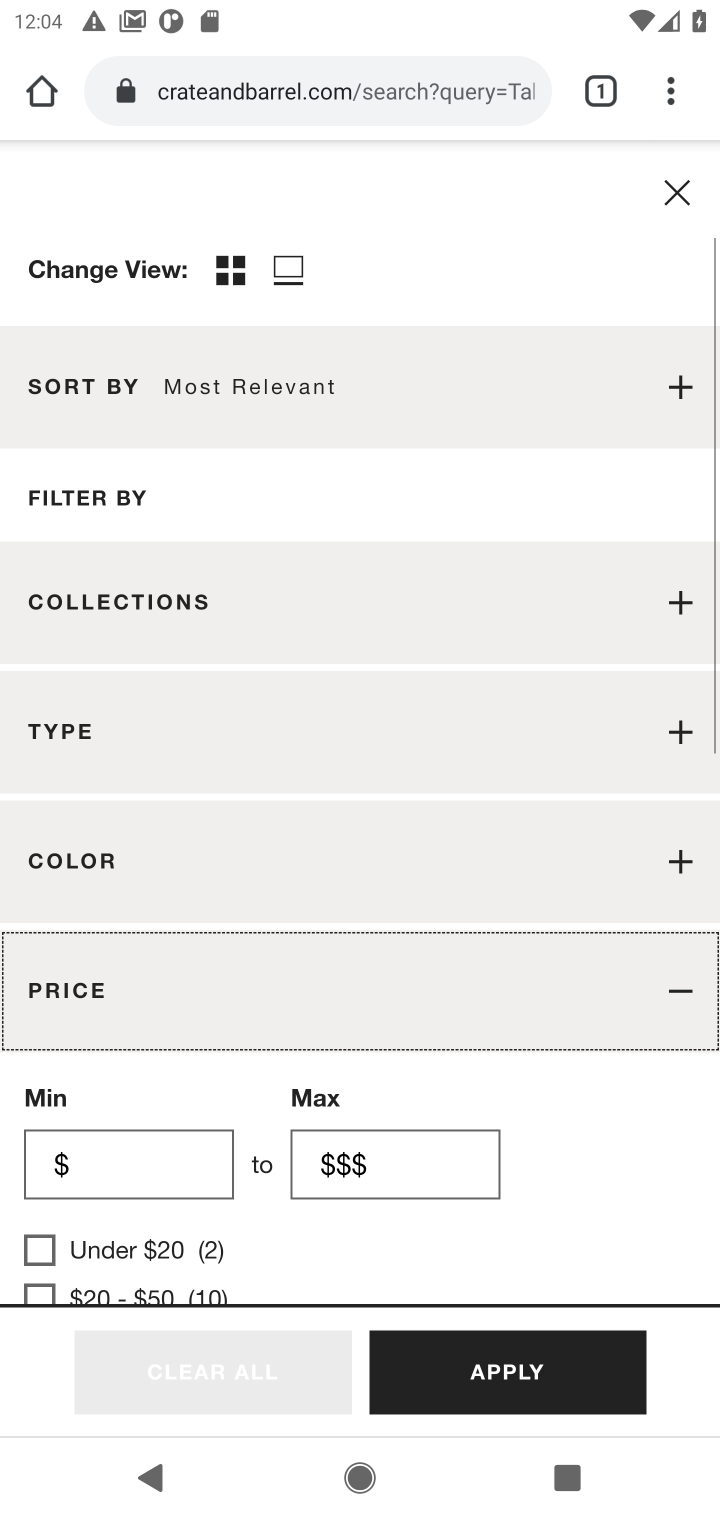
Step 29: drag from (519, 1223) to (568, 826)
Your task to perform on an android device: Check the best rated table lamp on Crate and Barrel Image 30: 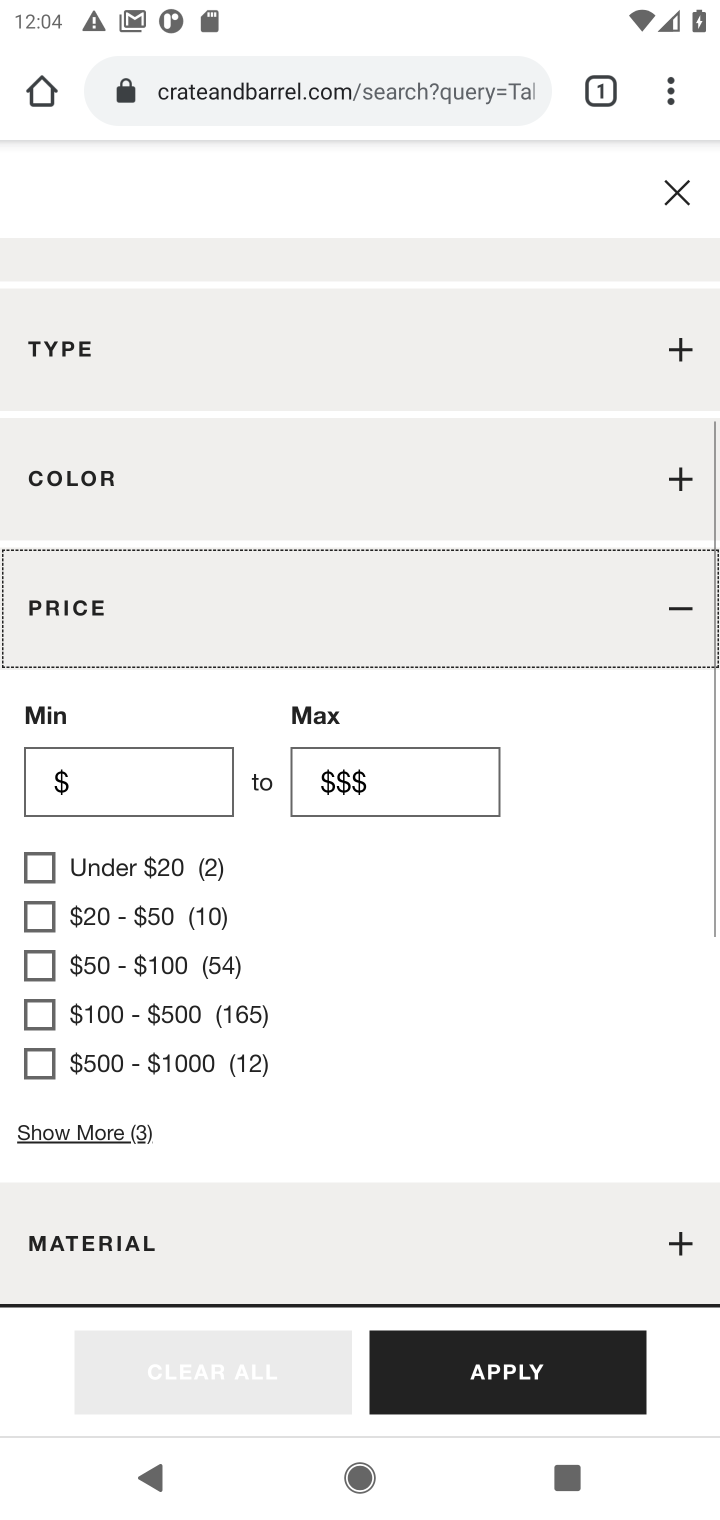
Step 30: click (33, 1088)
Your task to perform on an android device: Check the best rated table lamp on Crate and Barrel Image 31: 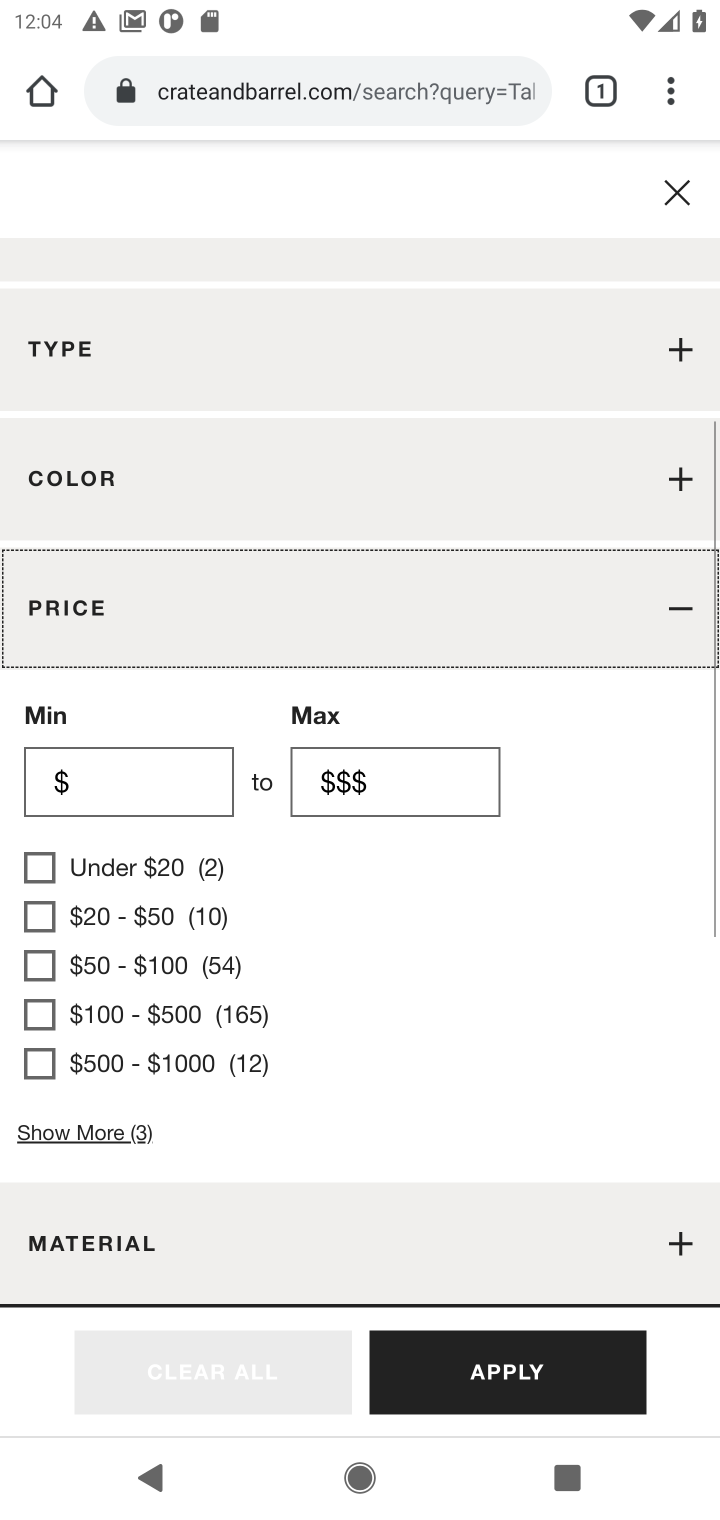
Step 31: click (41, 1069)
Your task to perform on an android device: Check the best rated table lamp on Crate and Barrel Image 32: 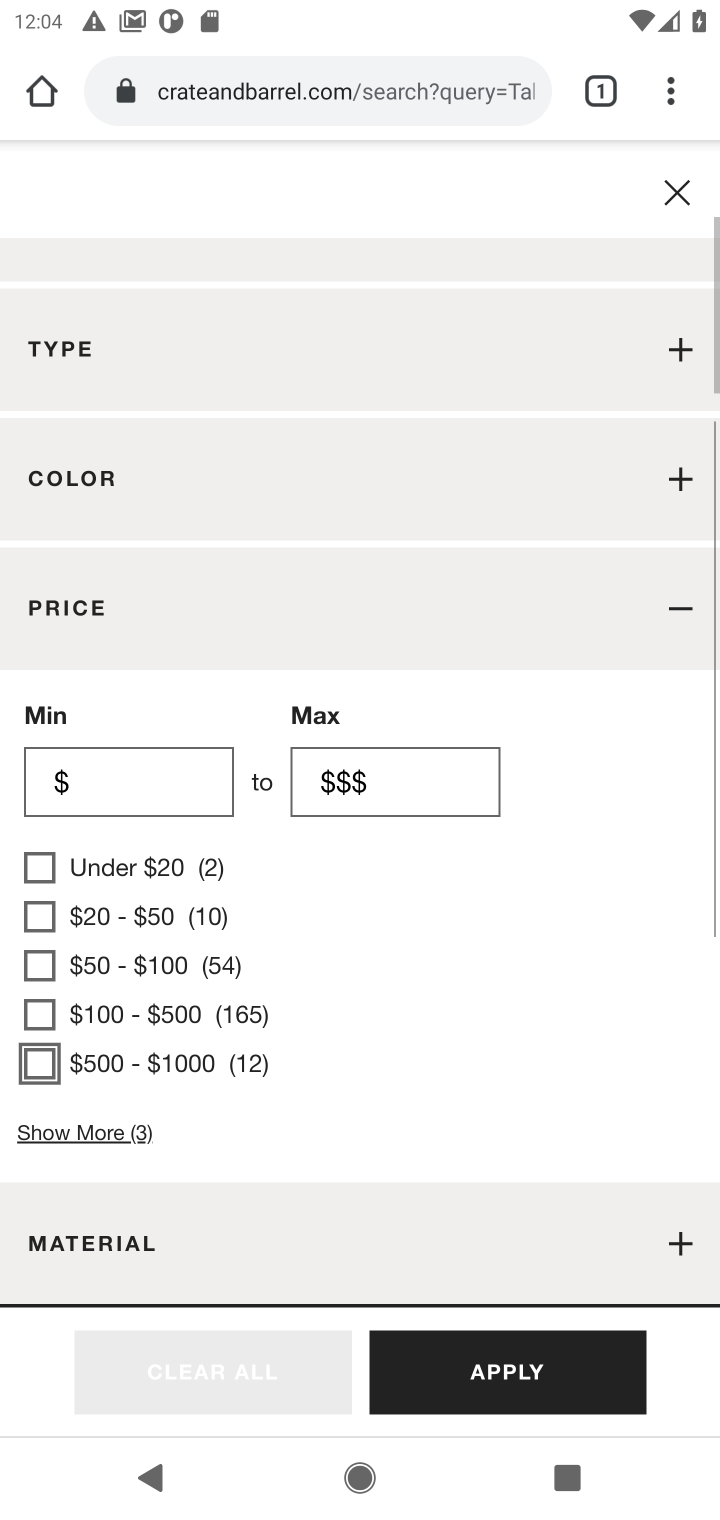
Step 32: click (421, 1378)
Your task to perform on an android device: Check the best rated table lamp on Crate and Barrel Image 33: 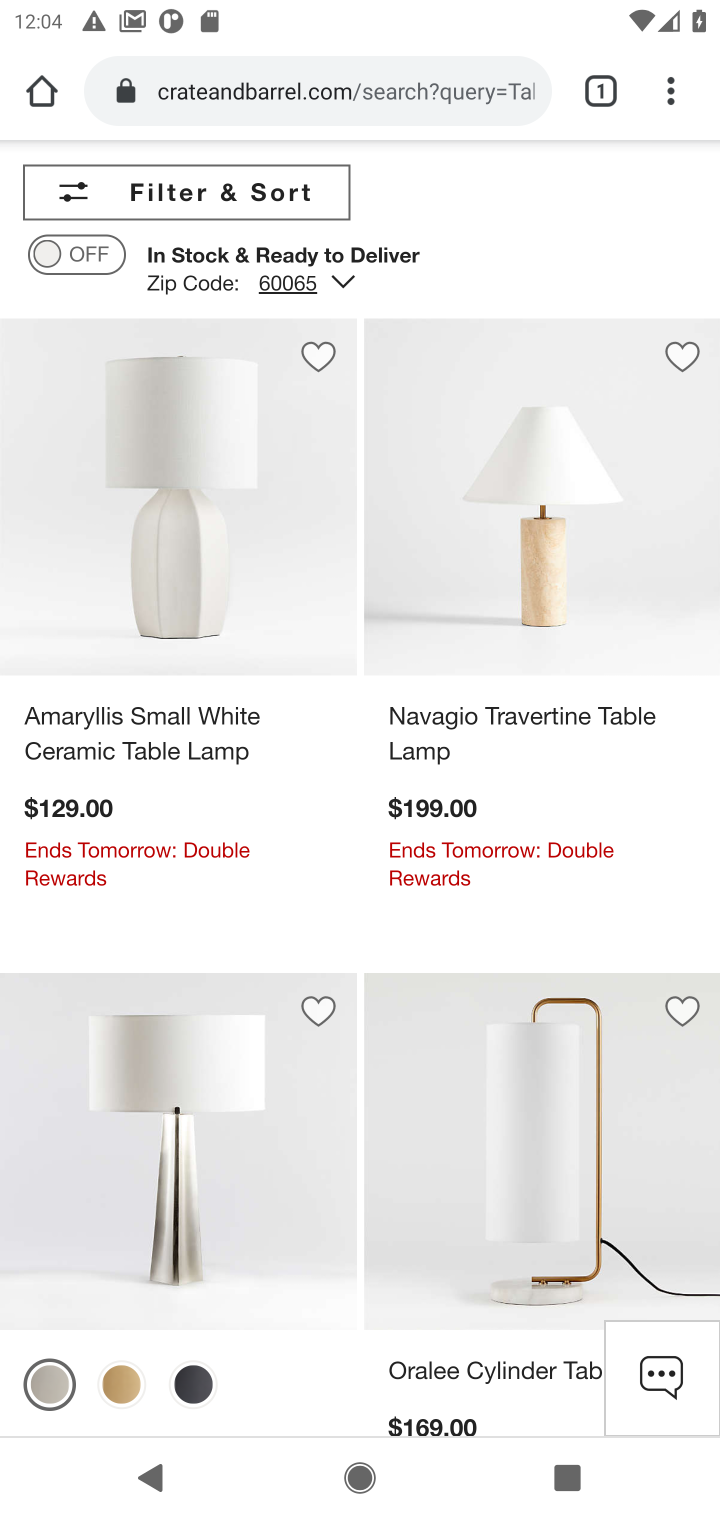
Step 33: drag from (532, 842) to (551, 243)
Your task to perform on an android device: Check the best rated table lamp on Crate and Barrel Image 34: 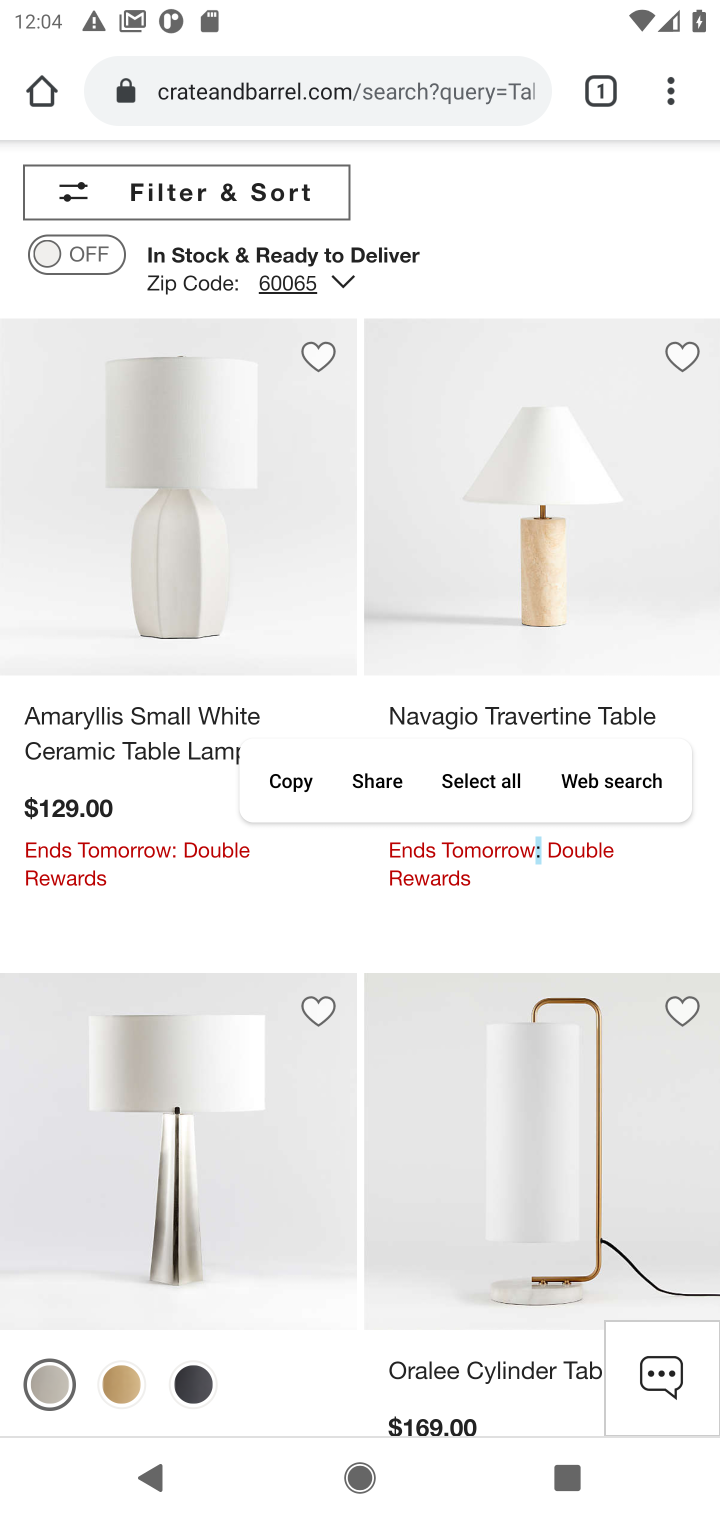
Step 34: drag from (406, 866) to (419, 536)
Your task to perform on an android device: Check the best rated table lamp on Crate and Barrel Image 35: 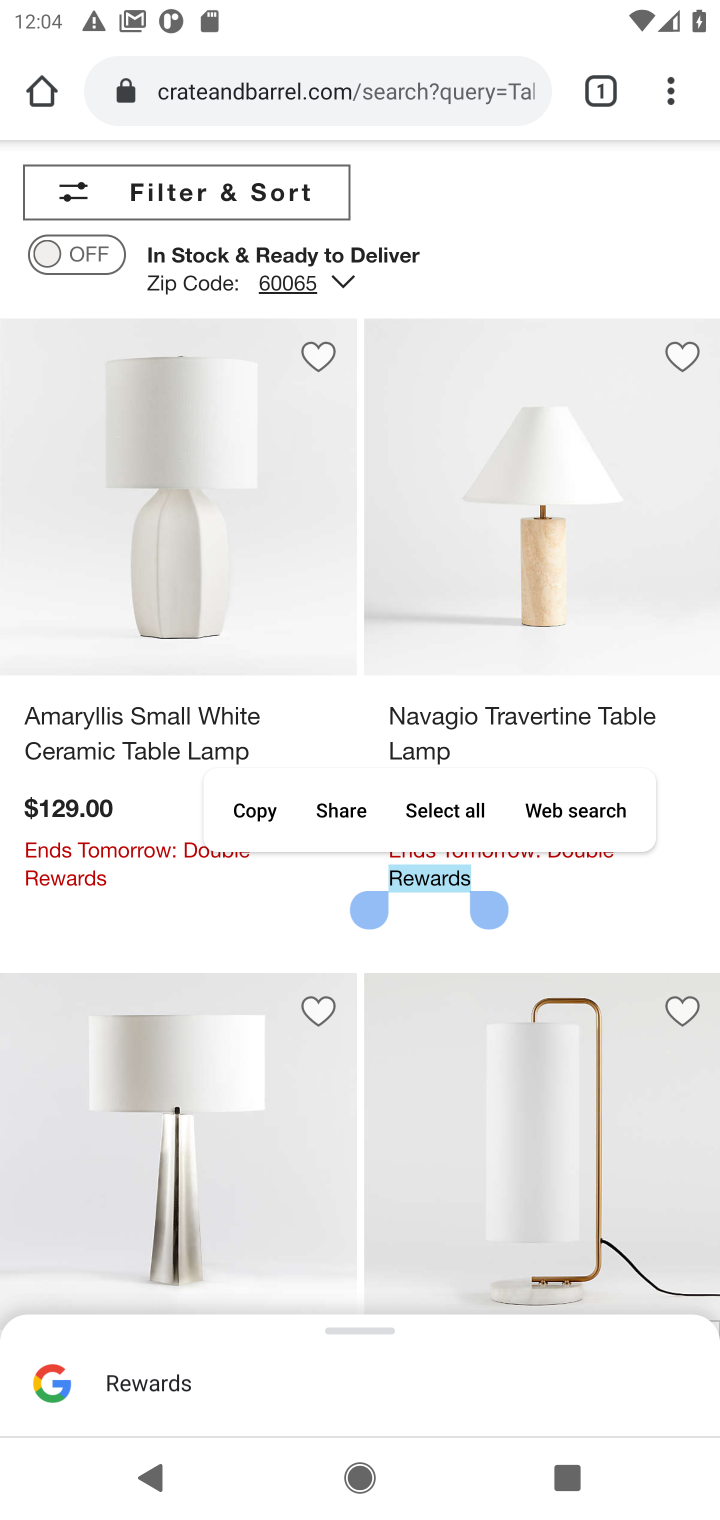
Step 35: drag from (661, 1021) to (652, 630)
Your task to perform on an android device: Check the best rated table lamp on Crate and Barrel Image 36: 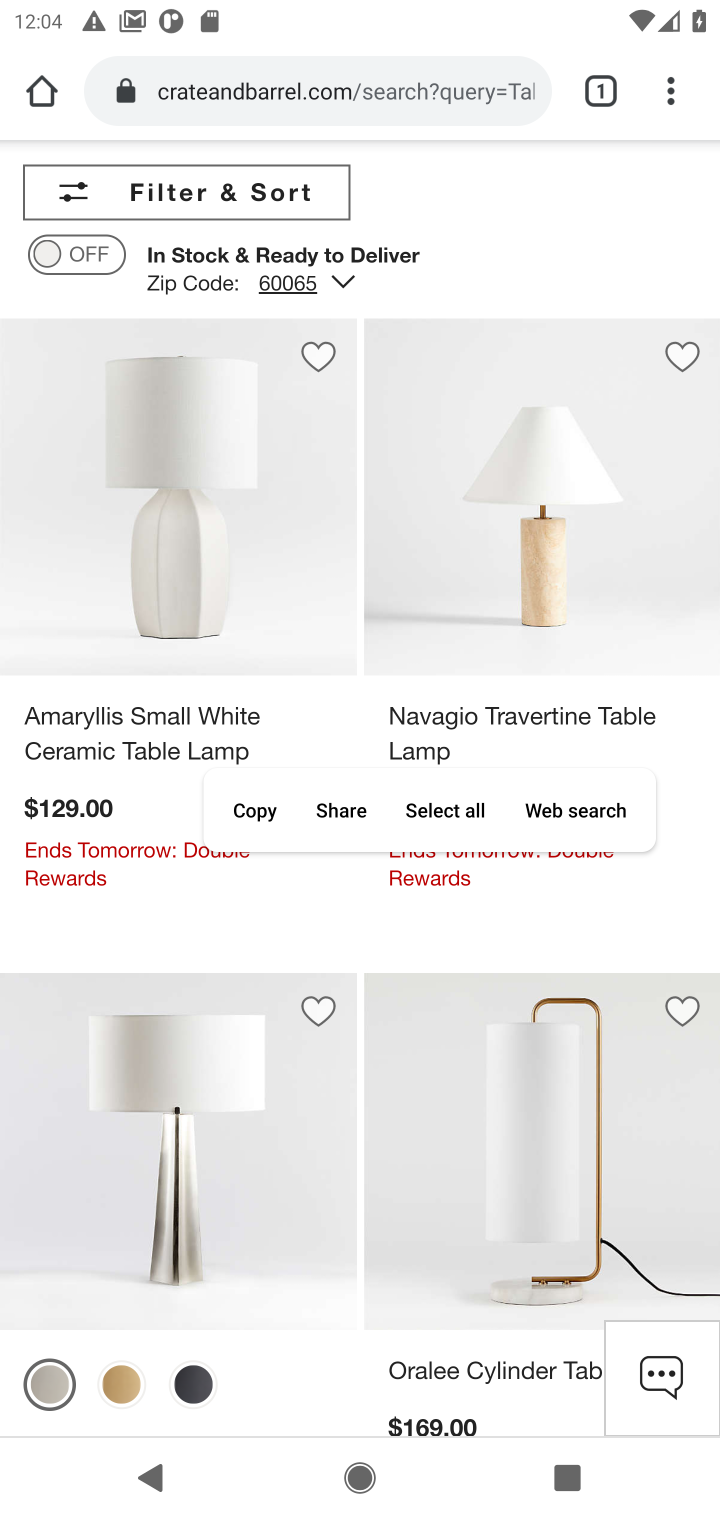
Step 36: drag from (507, 627) to (547, 279)
Your task to perform on an android device: Check the best rated table lamp on Crate and Barrel Image 37: 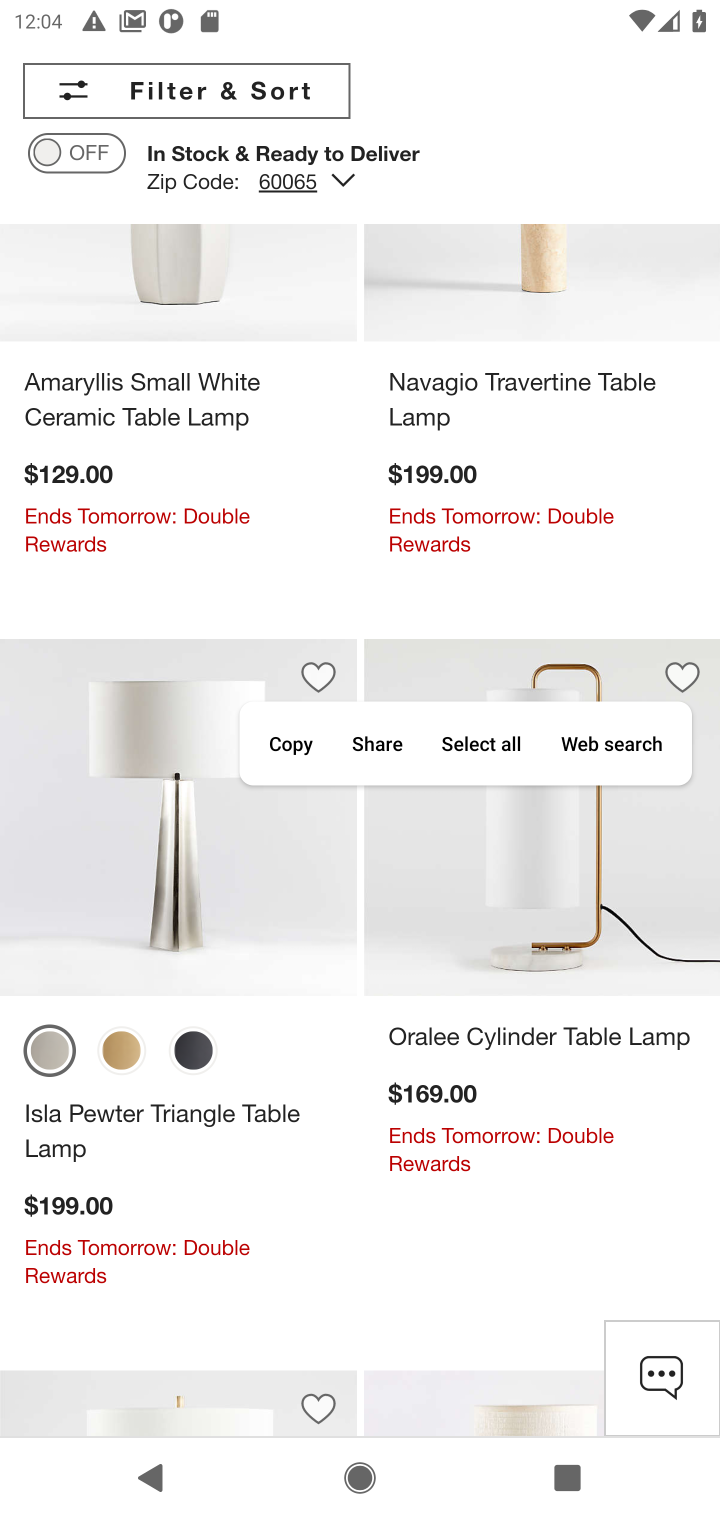
Step 37: drag from (557, 1210) to (591, 91)
Your task to perform on an android device: Check the best rated table lamp on Crate and Barrel Image 38: 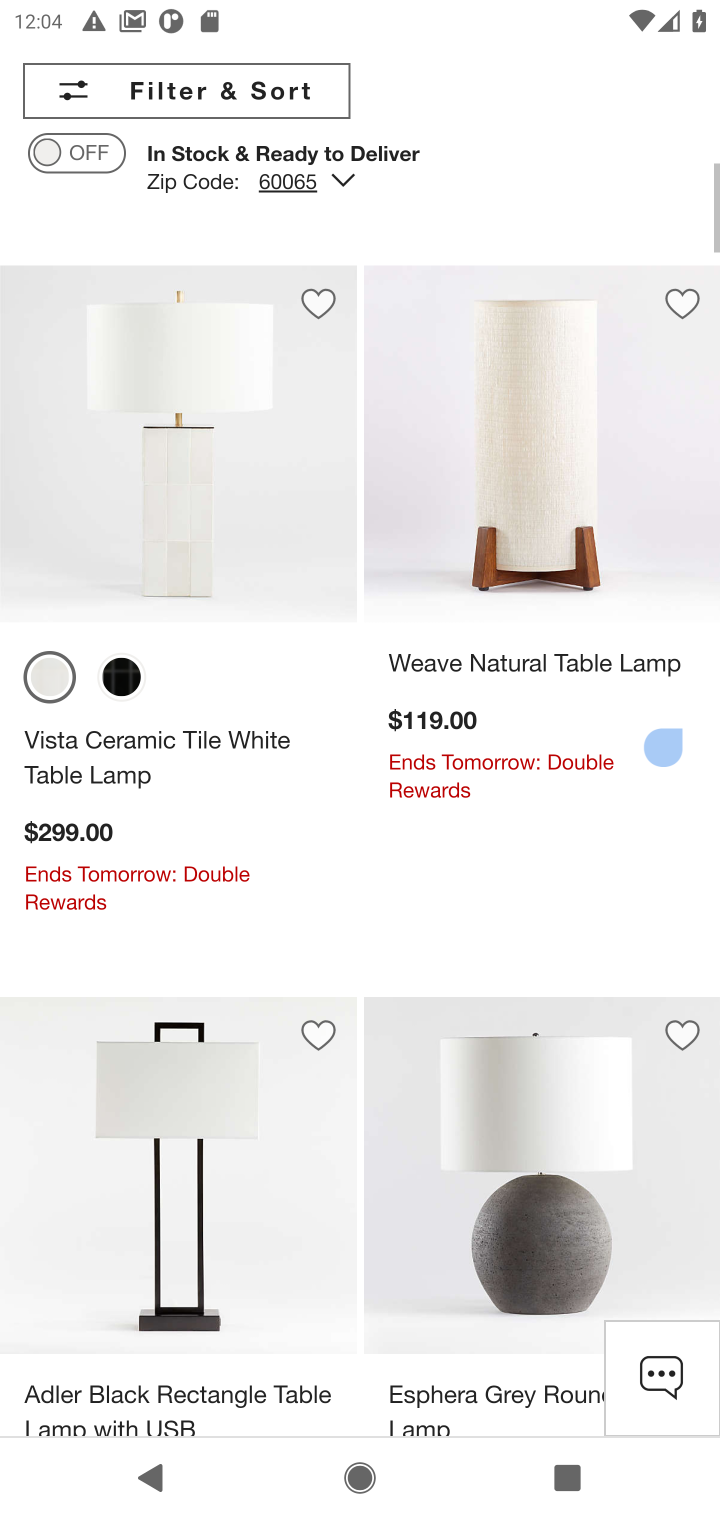
Step 38: drag from (546, 1164) to (583, 208)
Your task to perform on an android device: Check the best rated table lamp on Crate and Barrel Image 39: 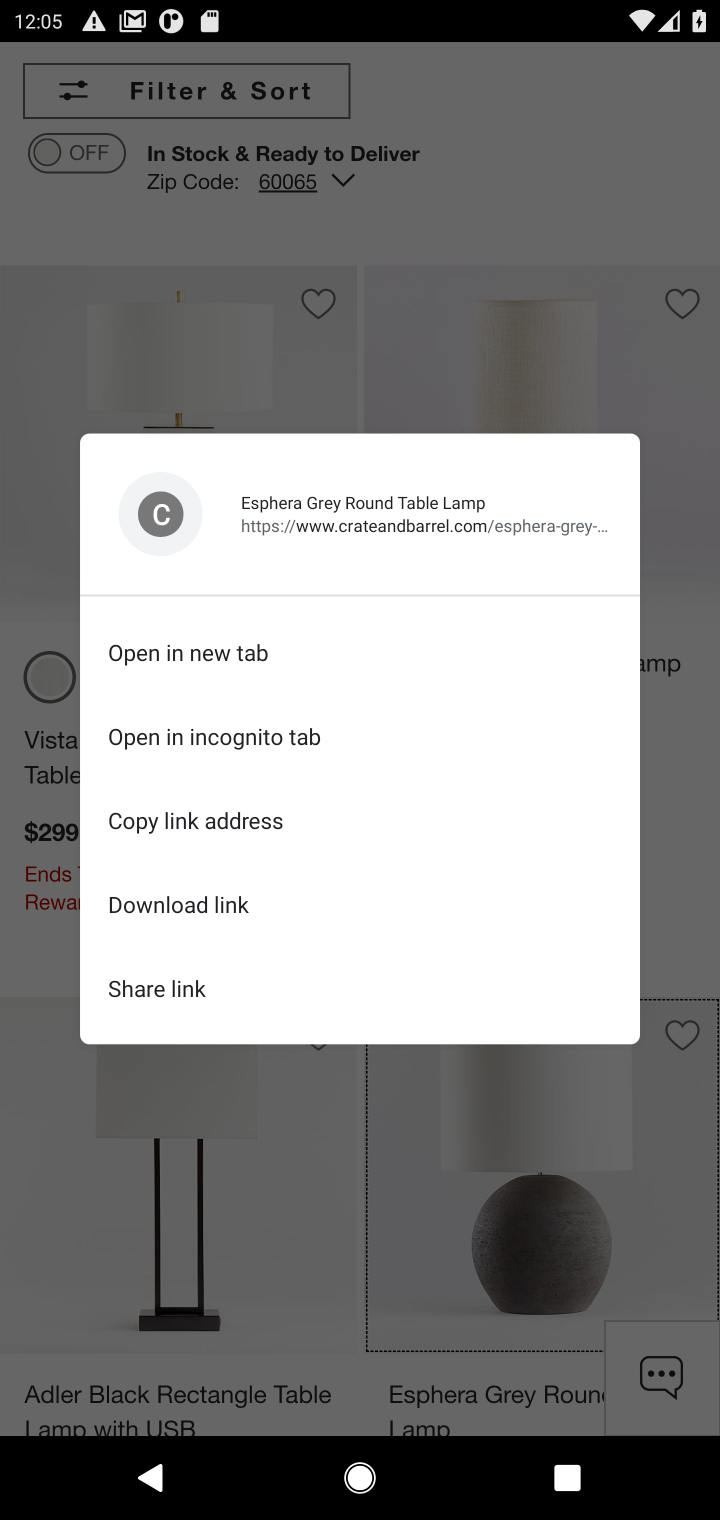
Step 39: click (710, 1153)
Your task to perform on an android device: Check the best rated table lamp on Crate and Barrel Image 40: 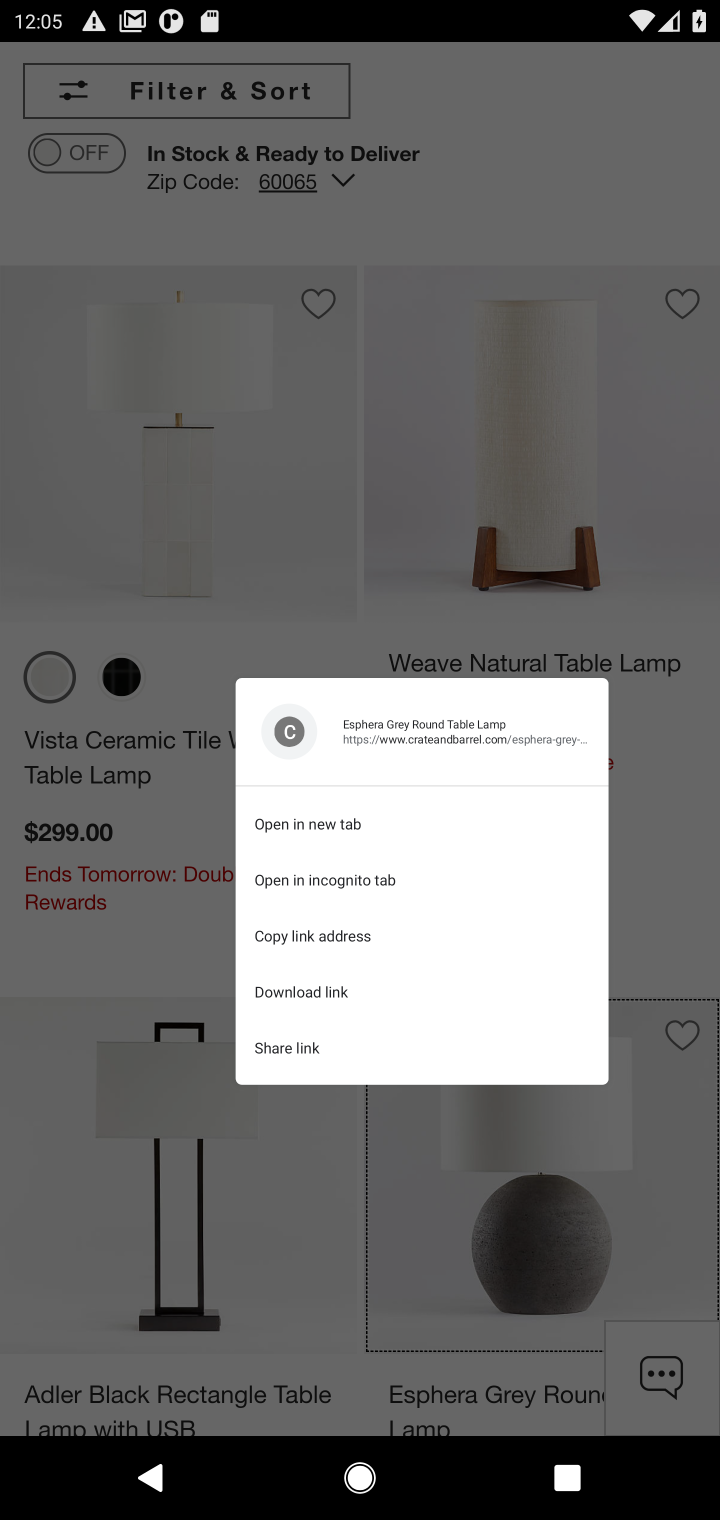
Step 40: task complete